Your task to perform on an android device: Open the web browser Image 0: 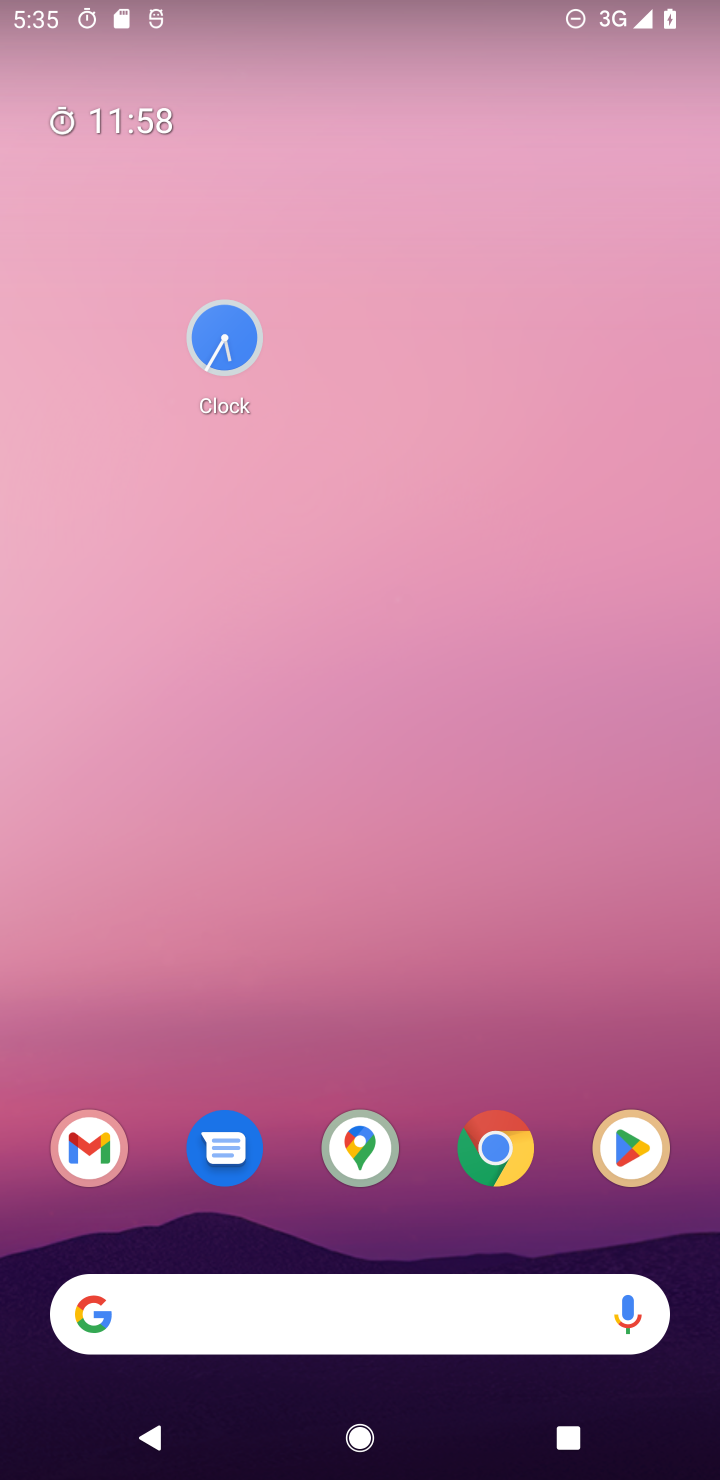
Step 0: drag from (530, 707) to (564, 539)
Your task to perform on an android device: Open the web browser Image 1: 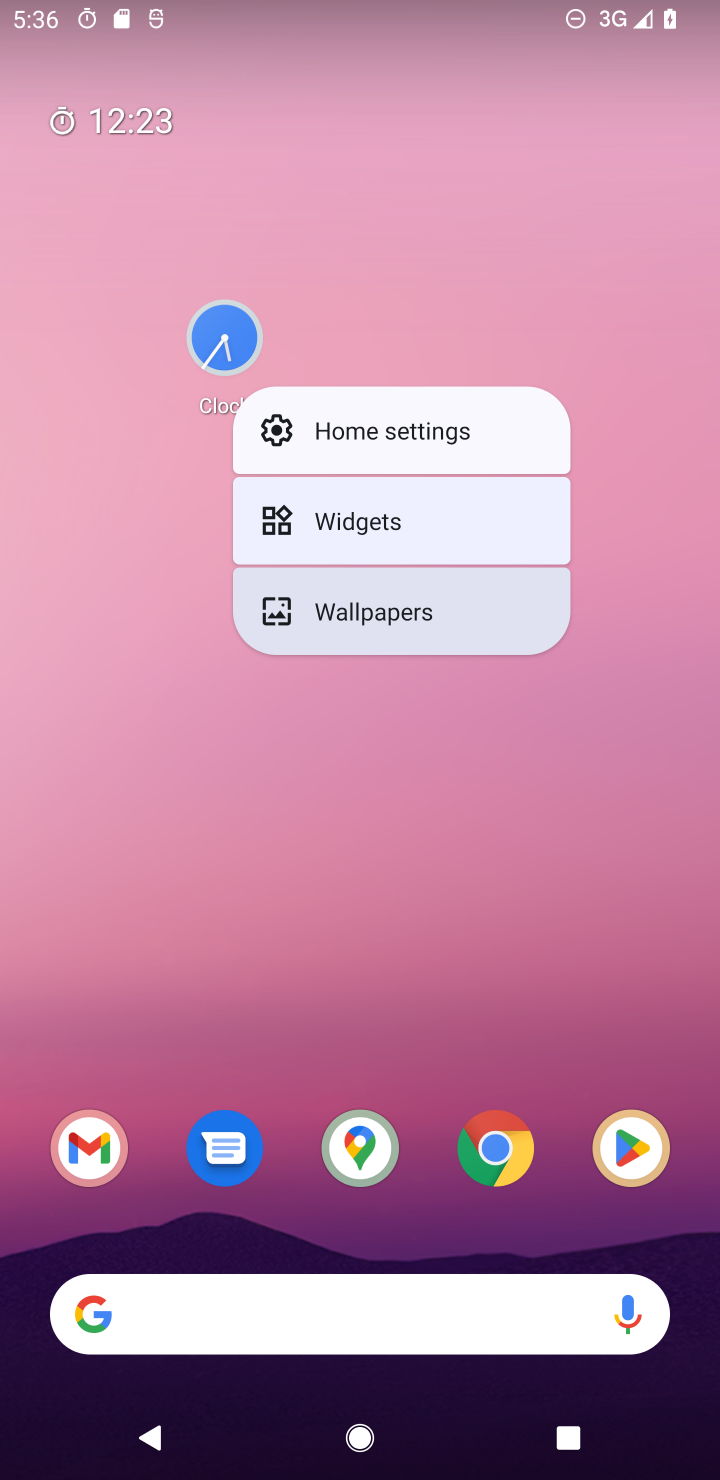
Step 1: click (404, 769)
Your task to perform on an android device: Open the web browser Image 2: 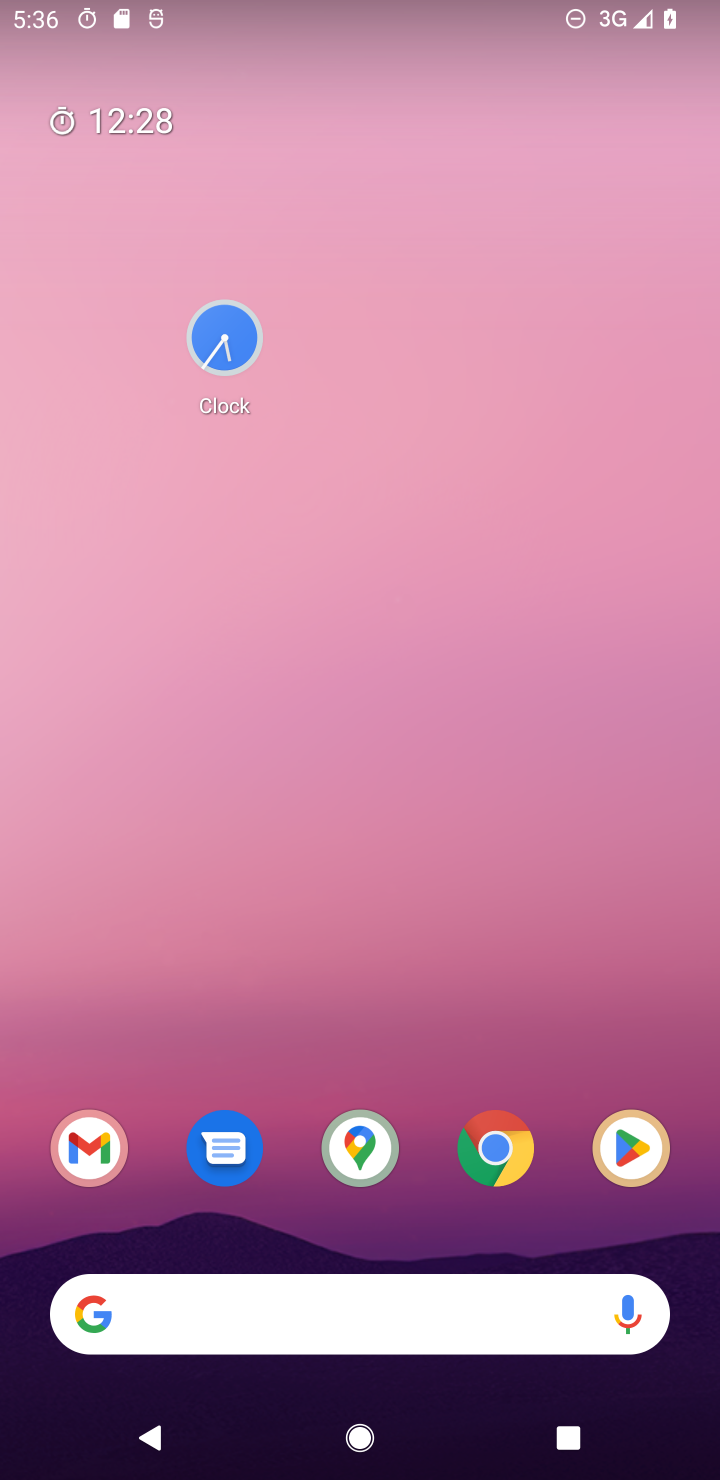
Step 2: click (483, 1166)
Your task to perform on an android device: Open the web browser Image 3: 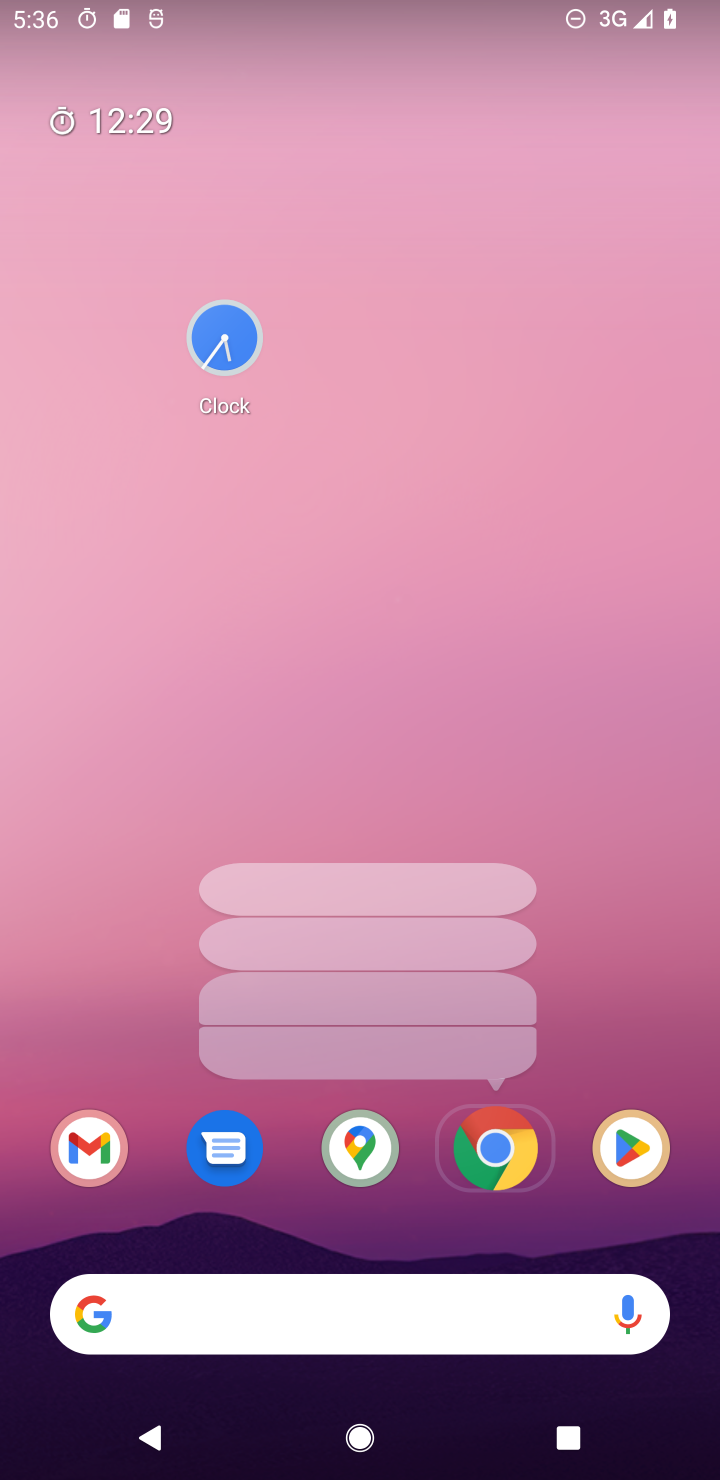
Step 3: click (478, 1158)
Your task to perform on an android device: Open the web browser Image 4: 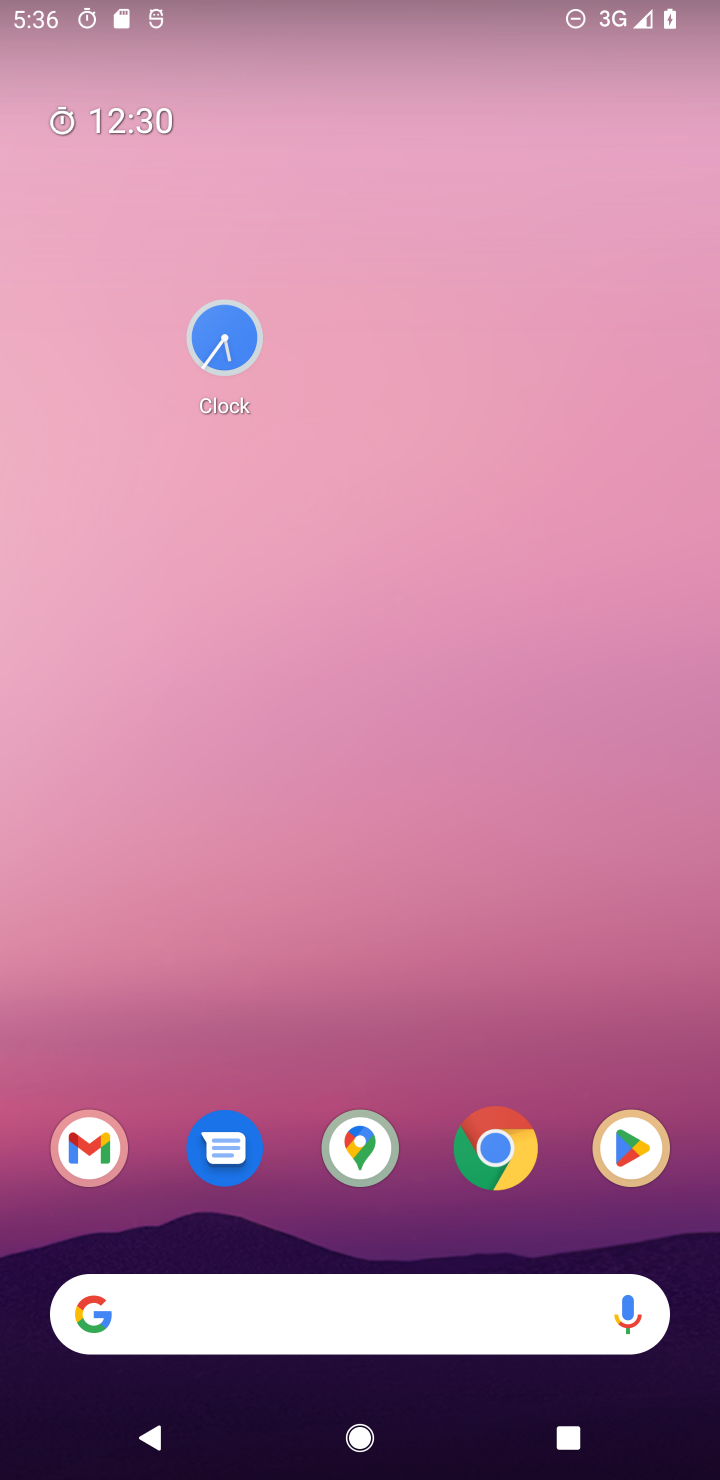
Step 4: click (482, 1152)
Your task to perform on an android device: Open the web browser Image 5: 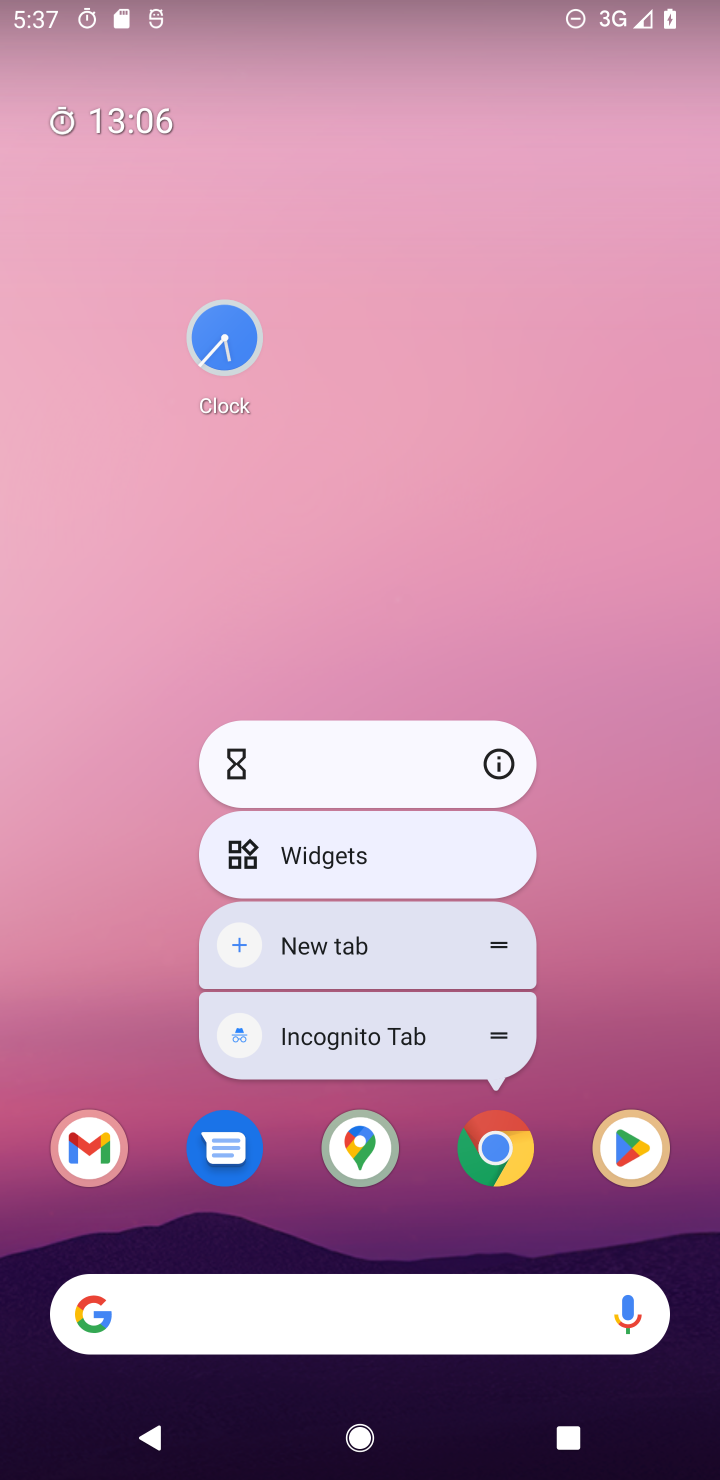
Step 5: click (501, 742)
Your task to perform on an android device: Open the web browser Image 6: 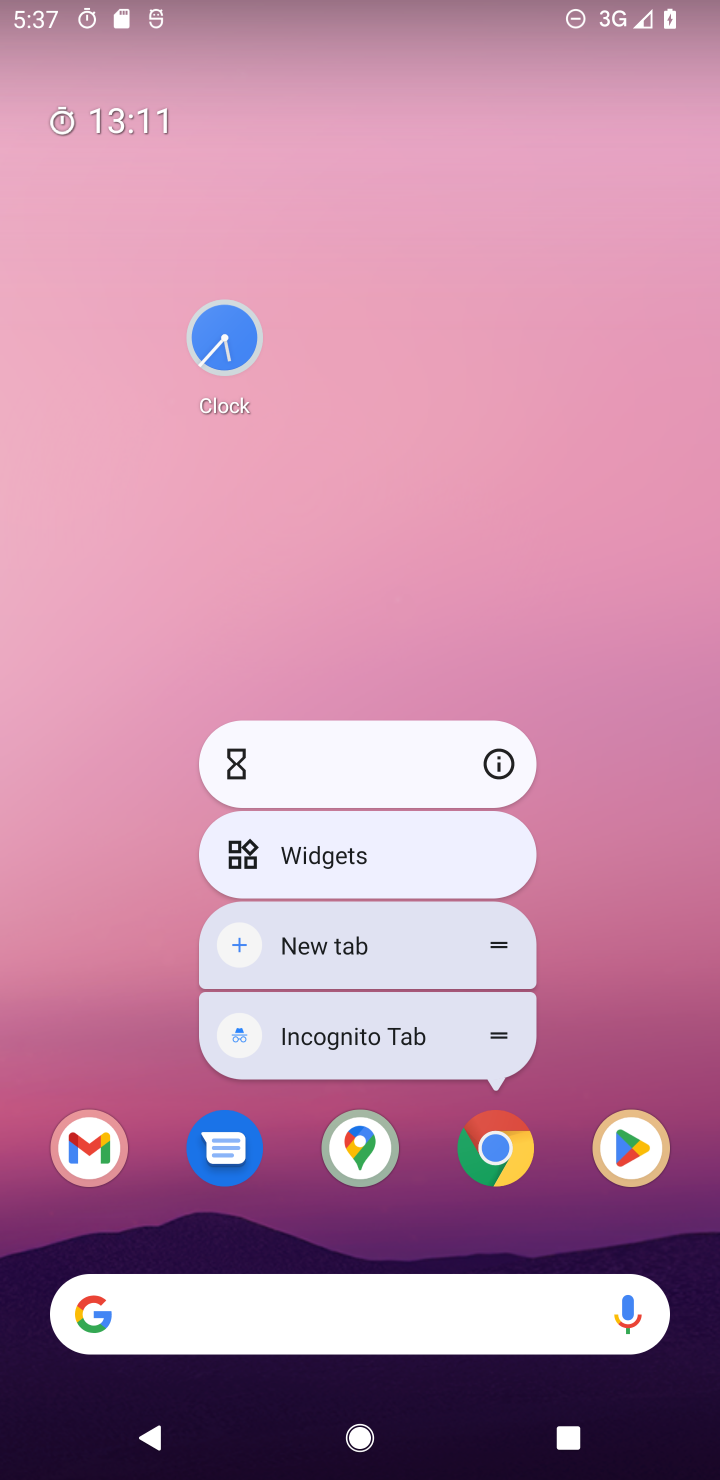
Step 6: click (500, 751)
Your task to perform on an android device: Open the web browser Image 7: 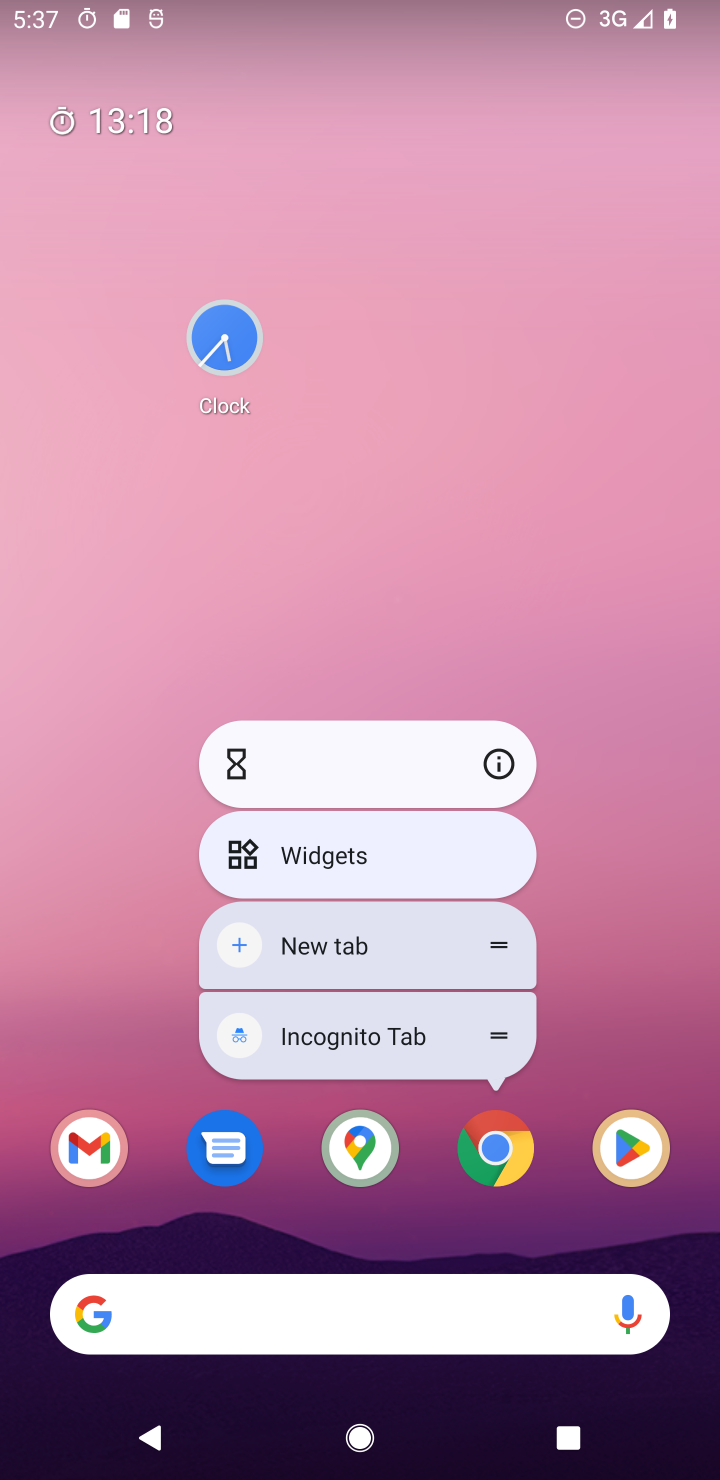
Step 7: click (511, 775)
Your task to perform on an android device: Open the web browser Image 8: 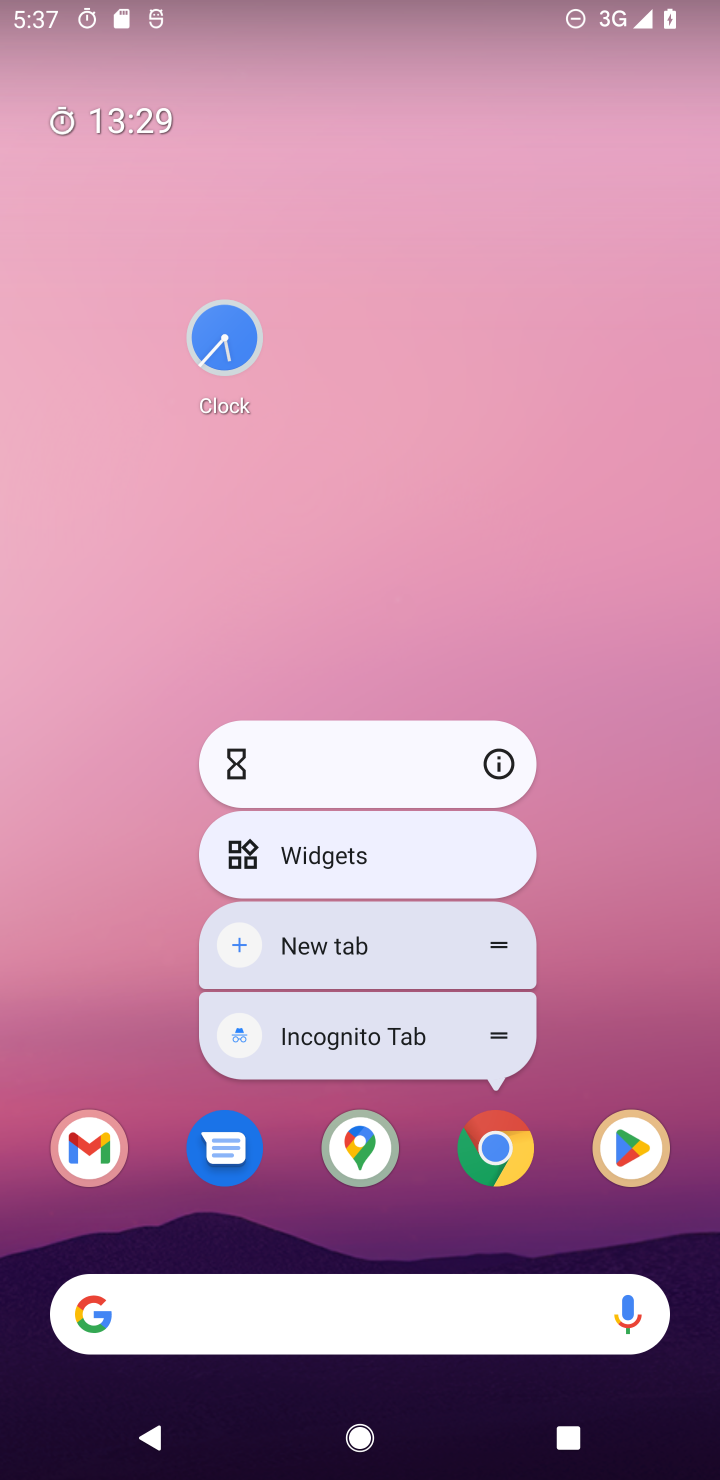
Step 8: click (506, 761)
Your task to perform on an android device: Open the web browser Image 9: 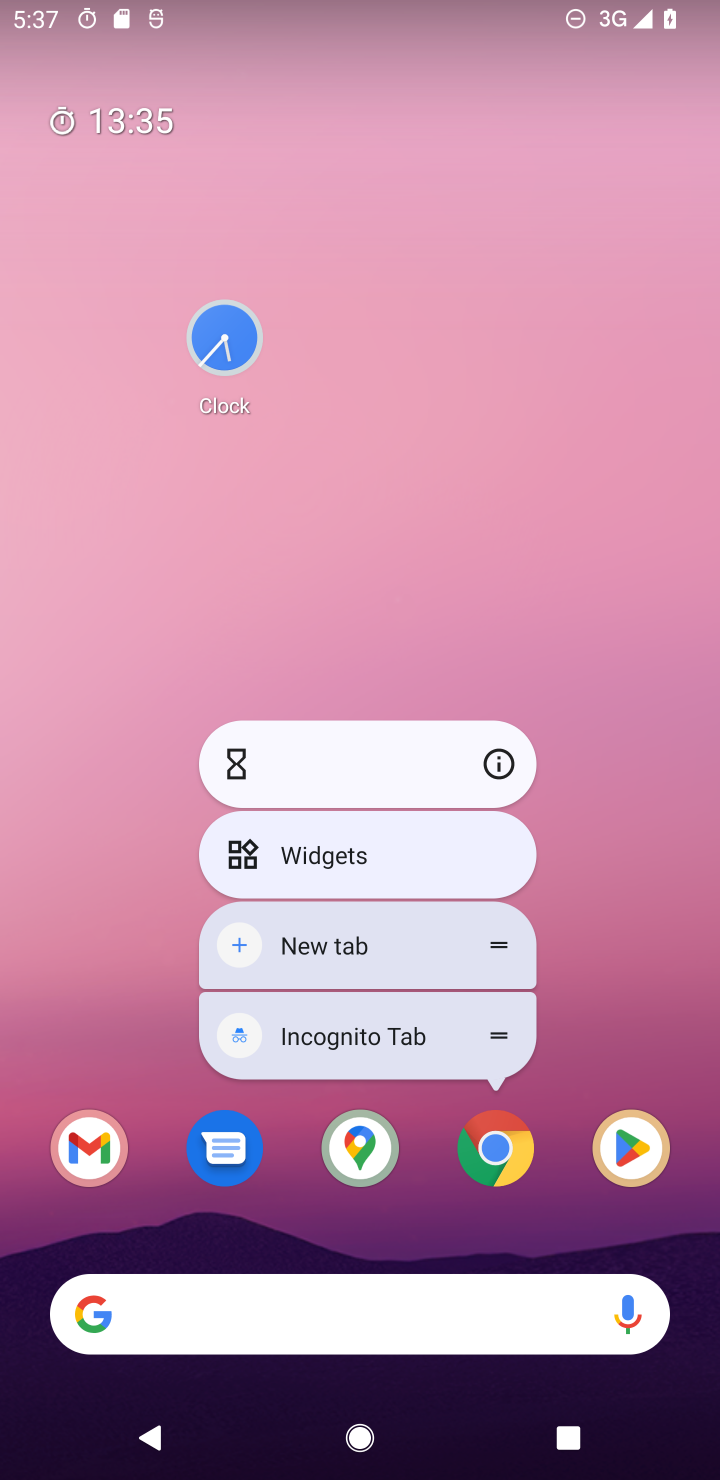
Step 9: click (505, 748)
Your task to perform on an android device: Open the web browser Image 10: 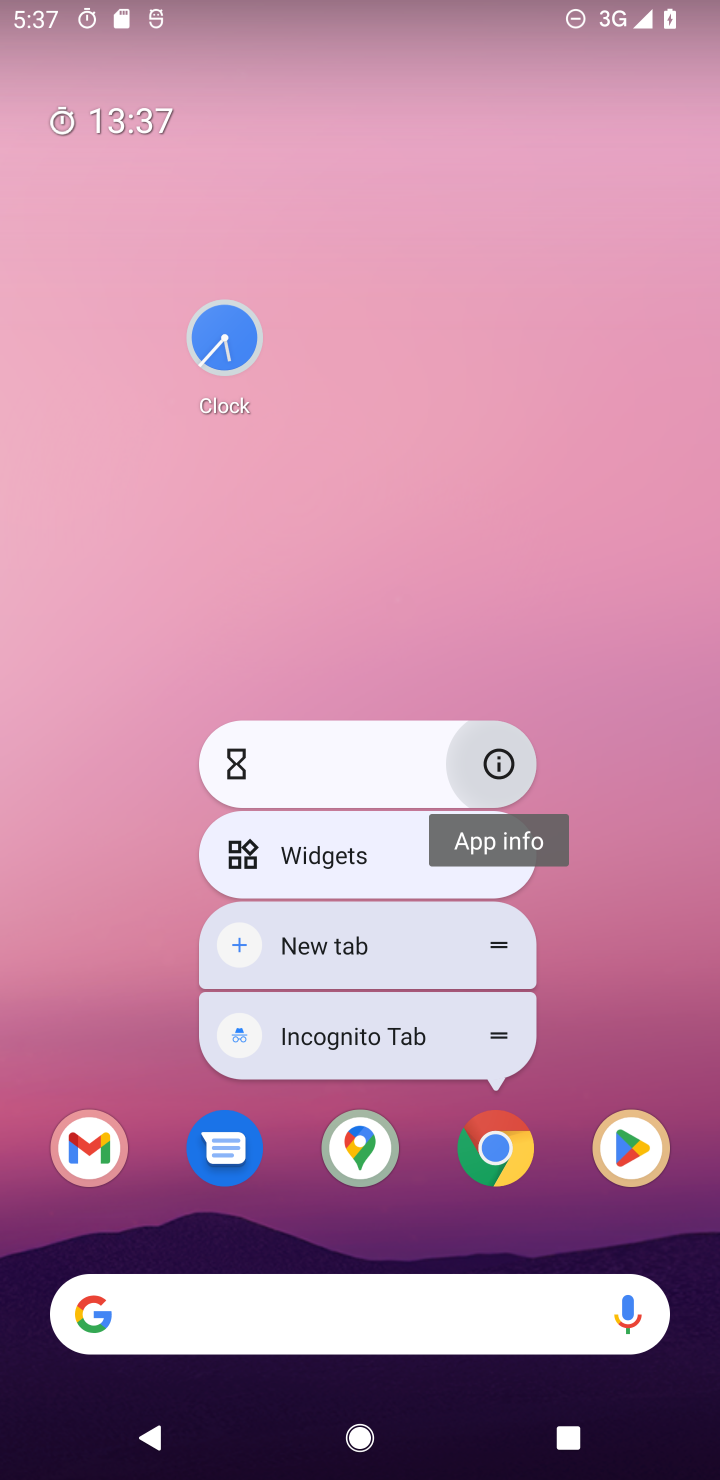
Step 10: click (505, 750)
Your task to perform on an android device: Open the web browser Image 11: 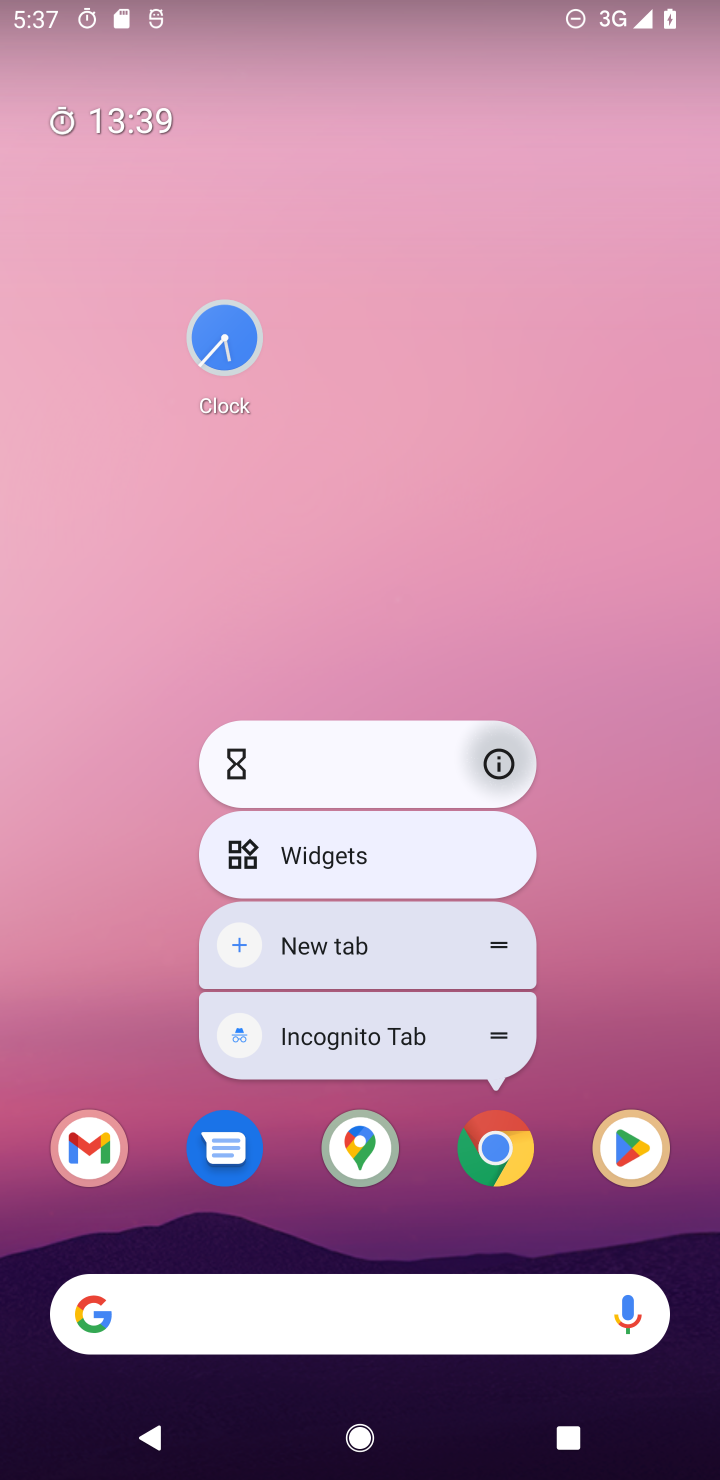
Step 11: click (505, 750)
Your task to perform on an android device: Open the web browser Image 12: 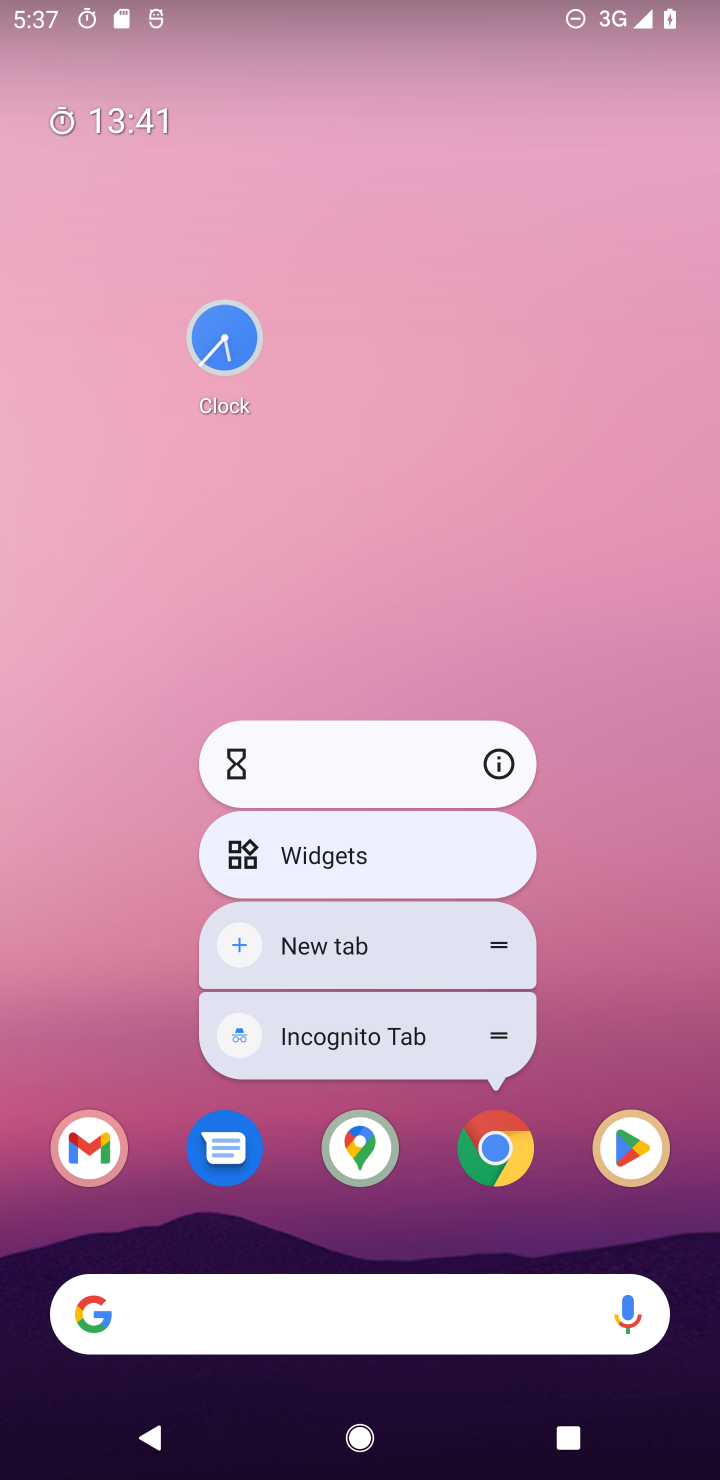
Step 12: click (505, 750)
Your task to perform on an android device: Open the web browser Image 13: 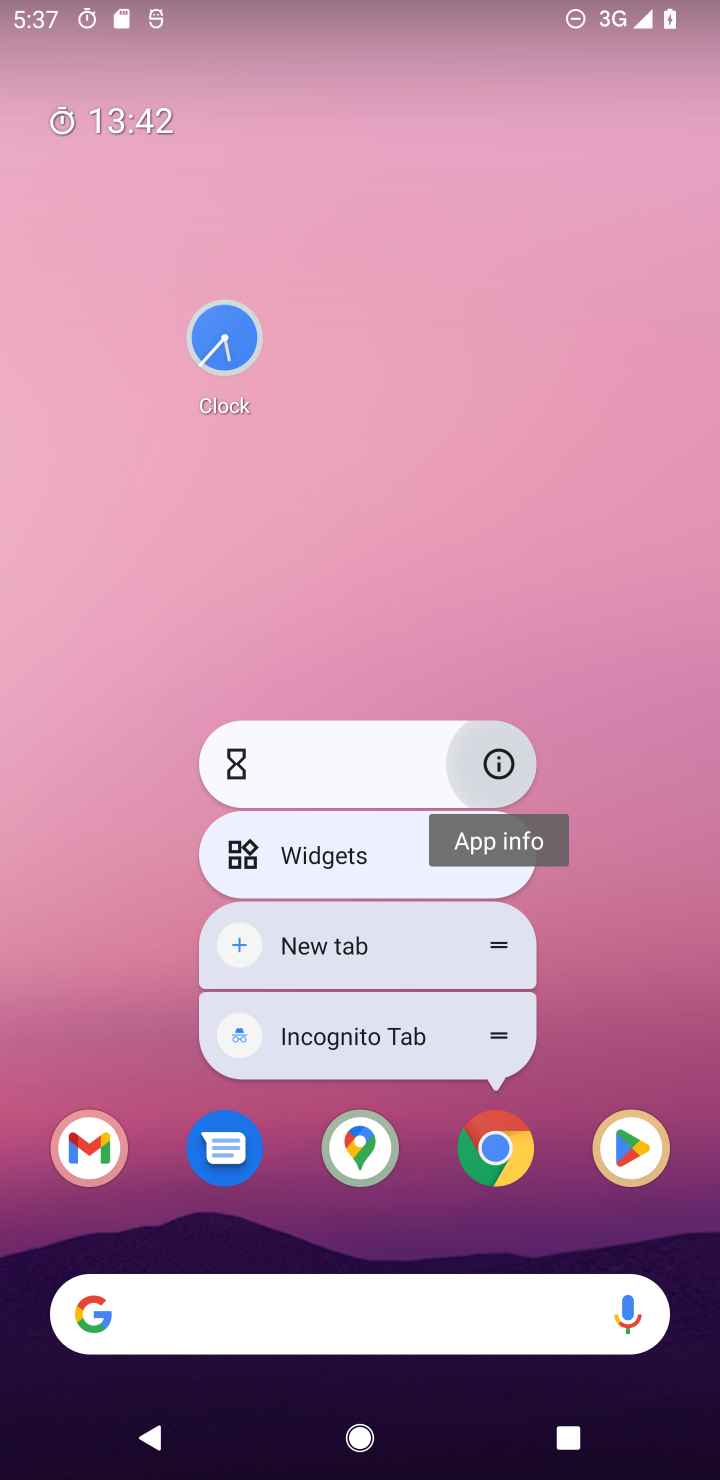
Step 13: click (505, 750)
Your task to perform on an android device: Open the web browser Image 14: 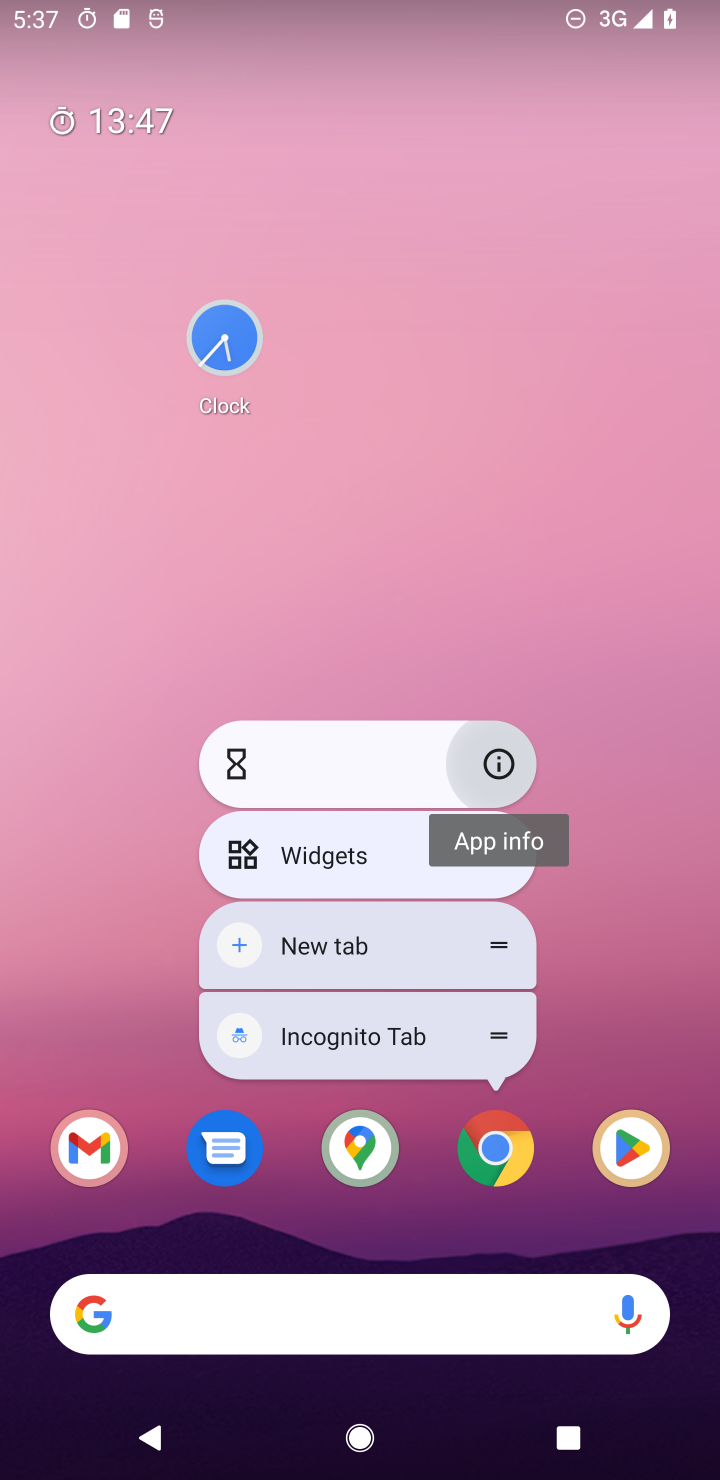
Step 14: click (494, 1222)
Your task to perform on an android device: Open the web browser Image 15: 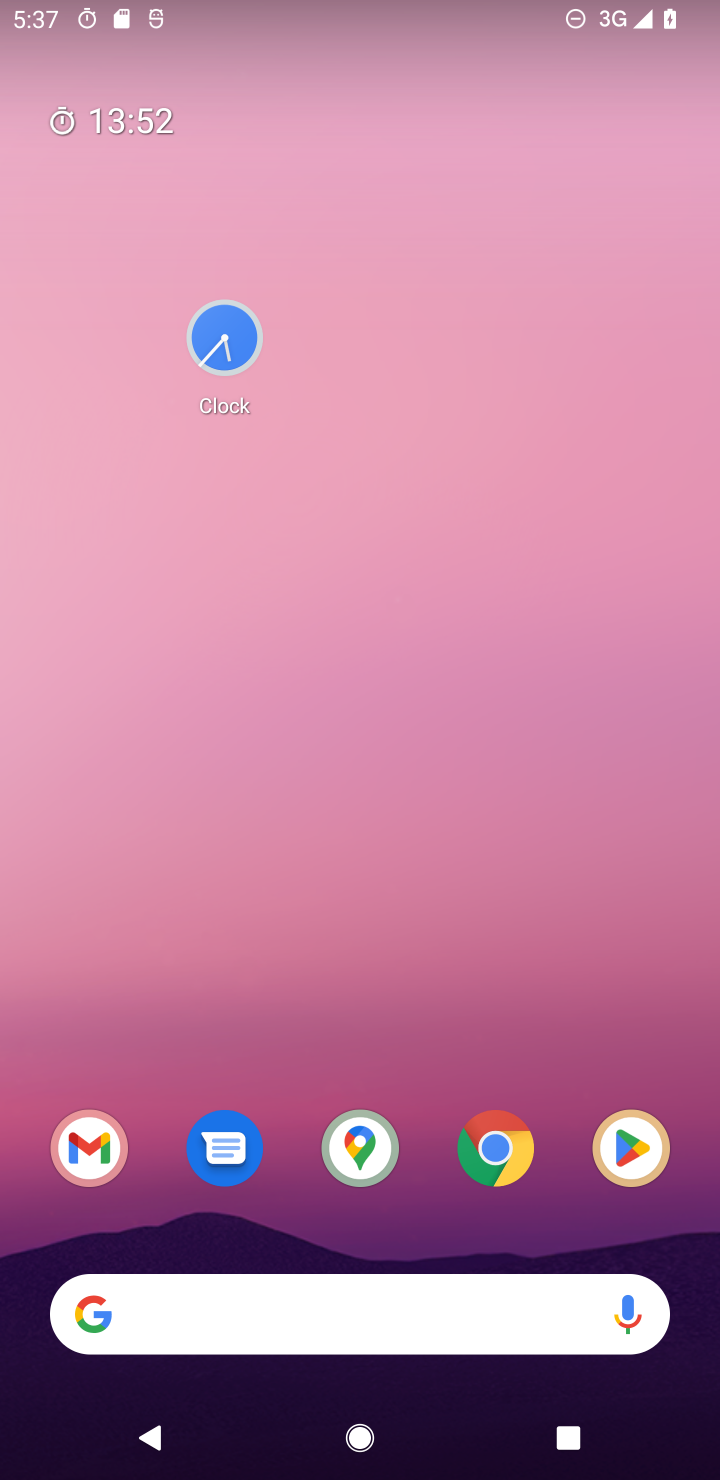
Step 15: click (501, 1143)
Your task to perform on an android device: Open the web browser Image 16: 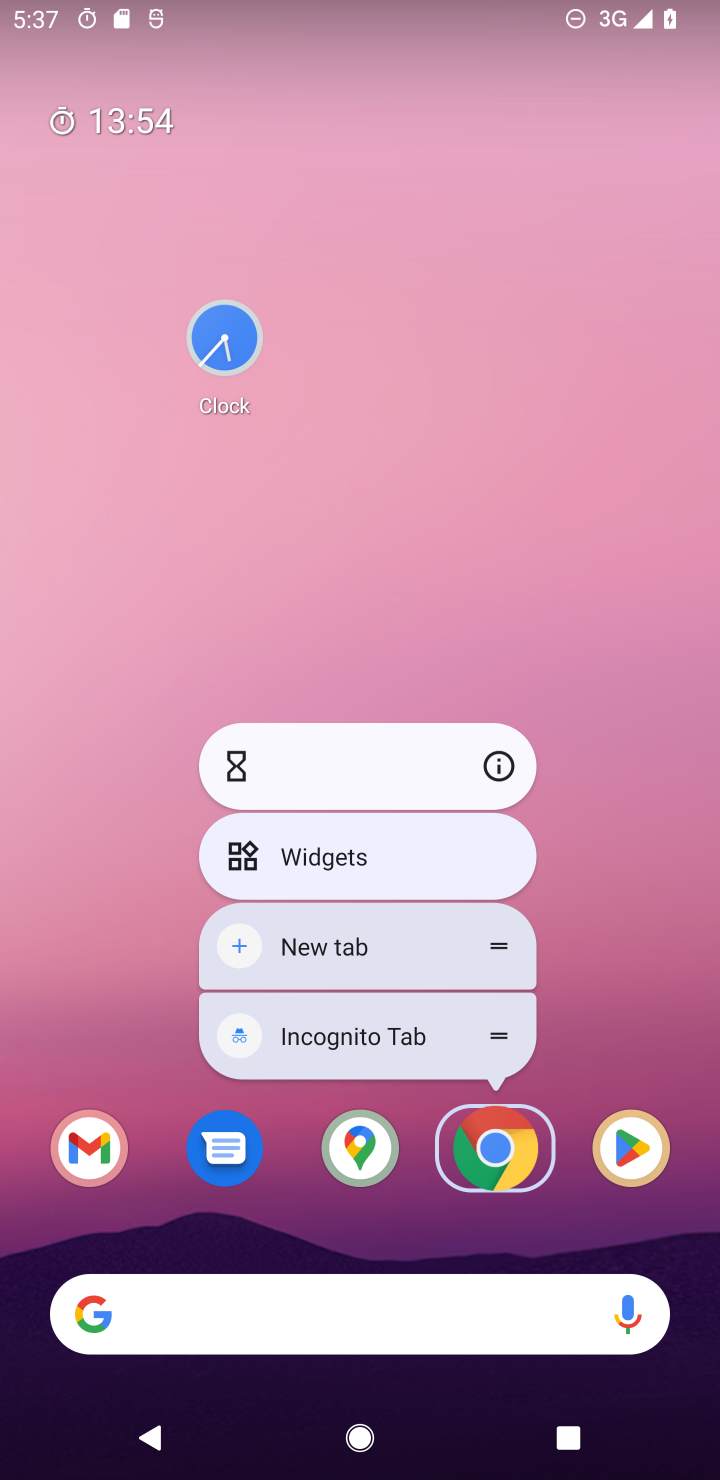
Step 16: drag from (391, 1255) to (526, 468)
Your task to perform on an android device: Open the web browser Image 17: 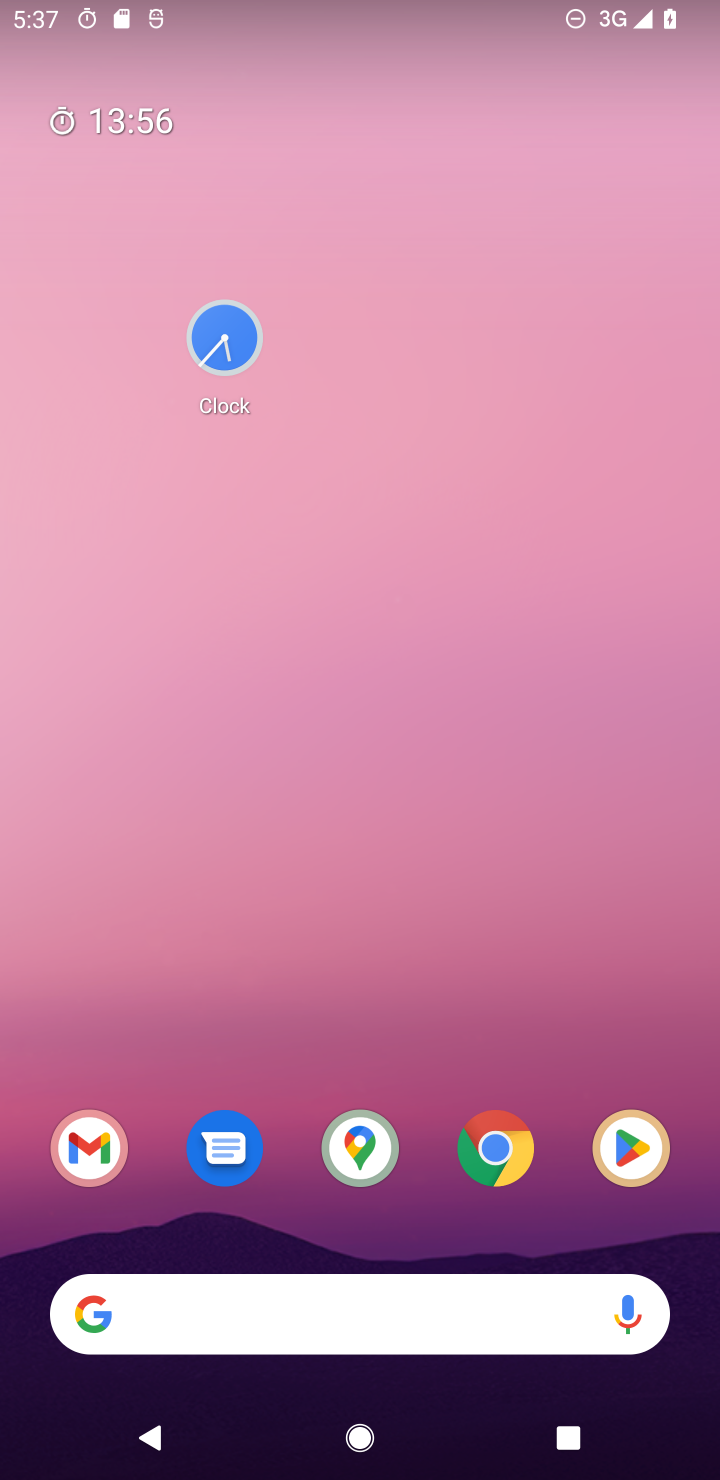
Step 17: drag from (263, 1249) to (299, 794)
Your task to perform on an android device: Open the web browser Image 18: 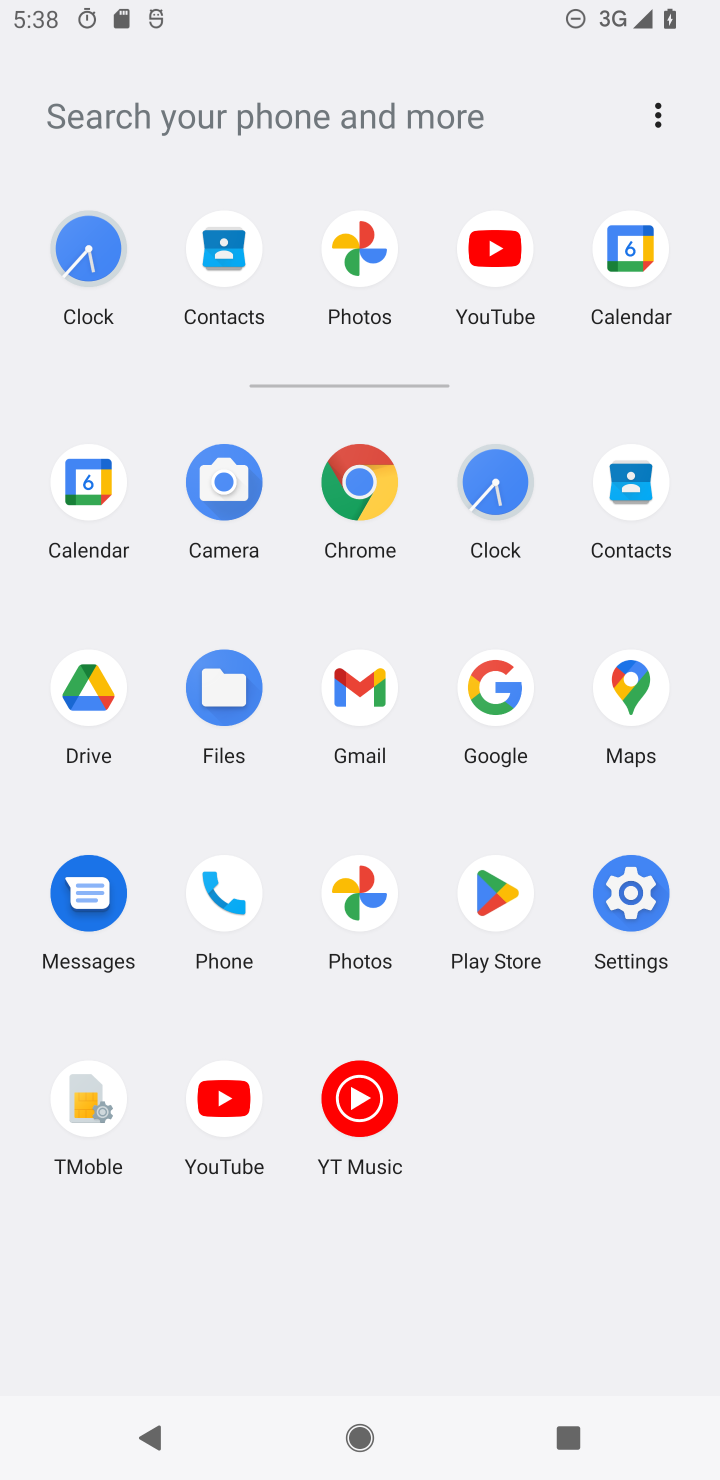
Step 18: click (342, 483)
Your task to perform on an android device: Open the web browser Image 19: 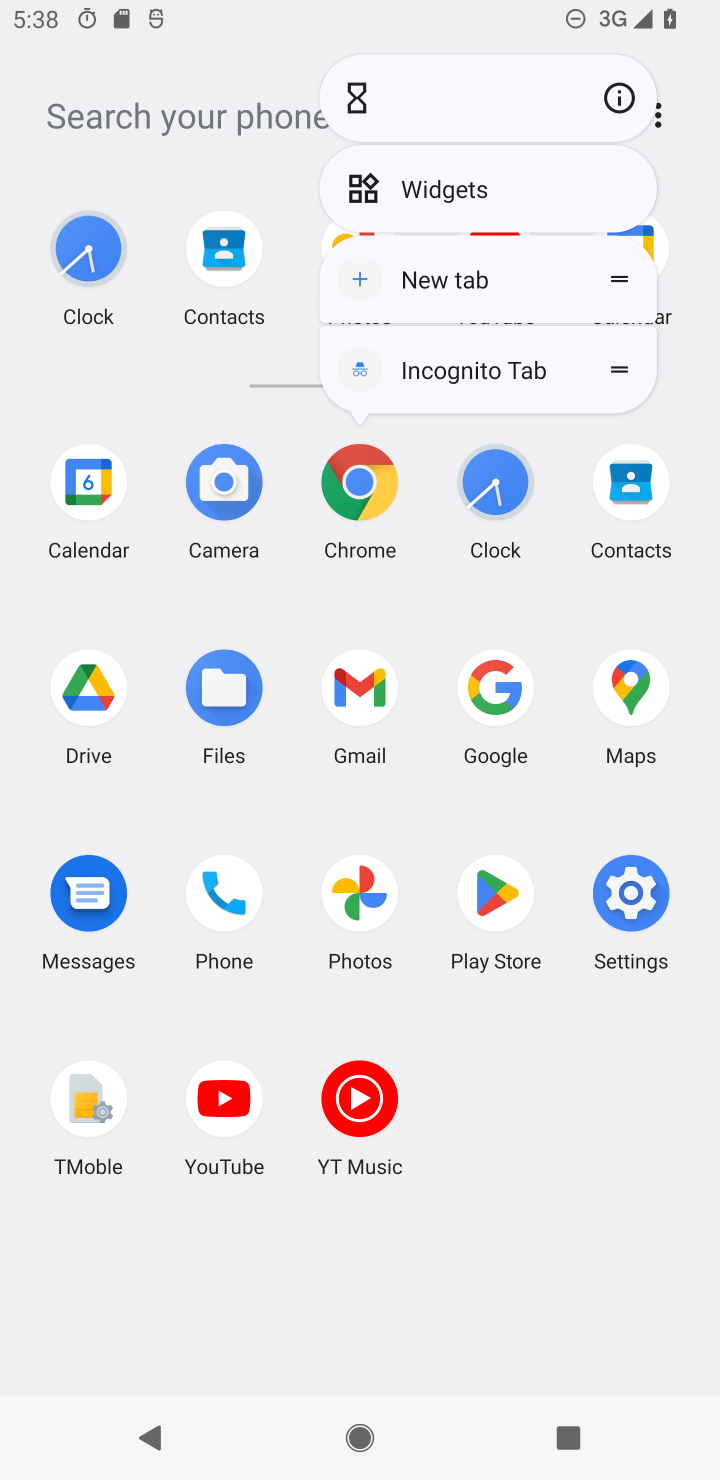
Step 19: click (358, 493)
Your task to perform on an android device: Open the web browser Image 20: 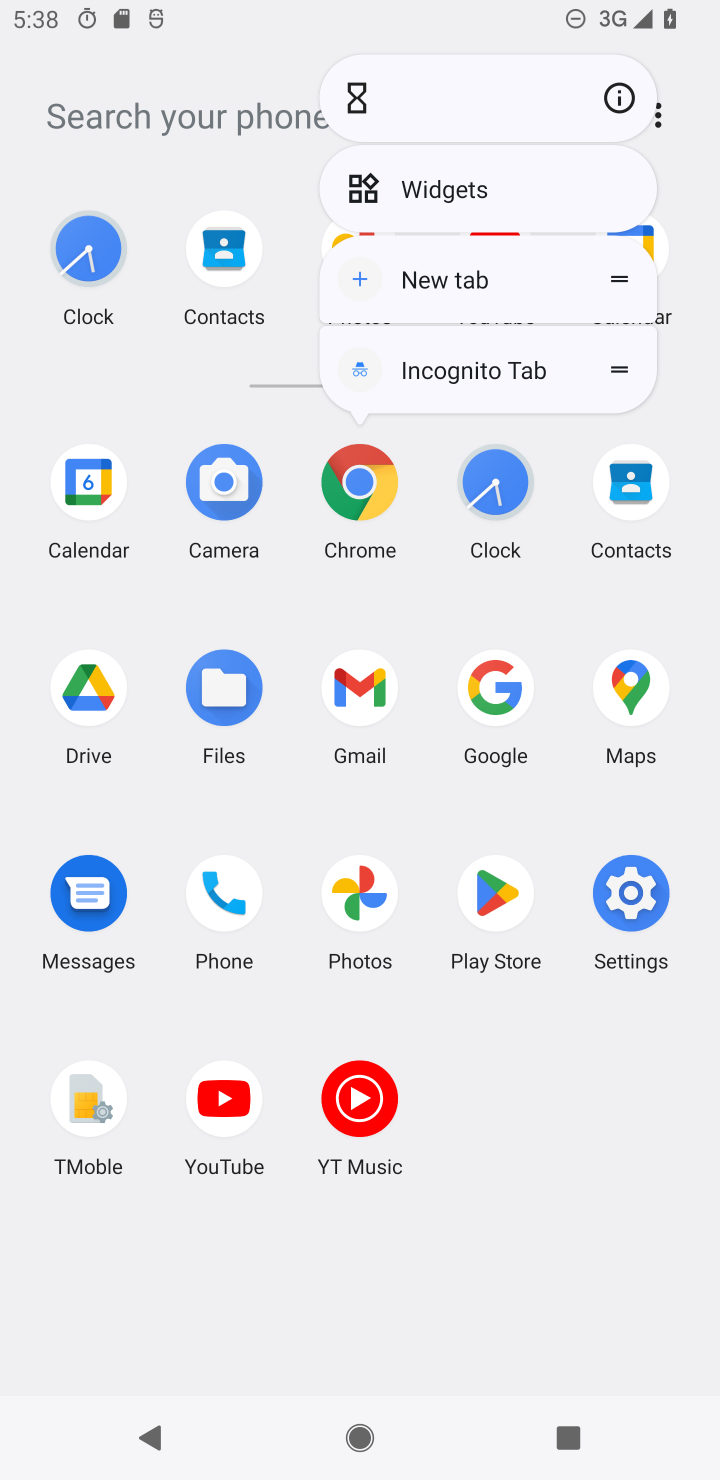
Step 20: click (356, 491)
Your task to perform on an android device: Open the web browser Image 21: 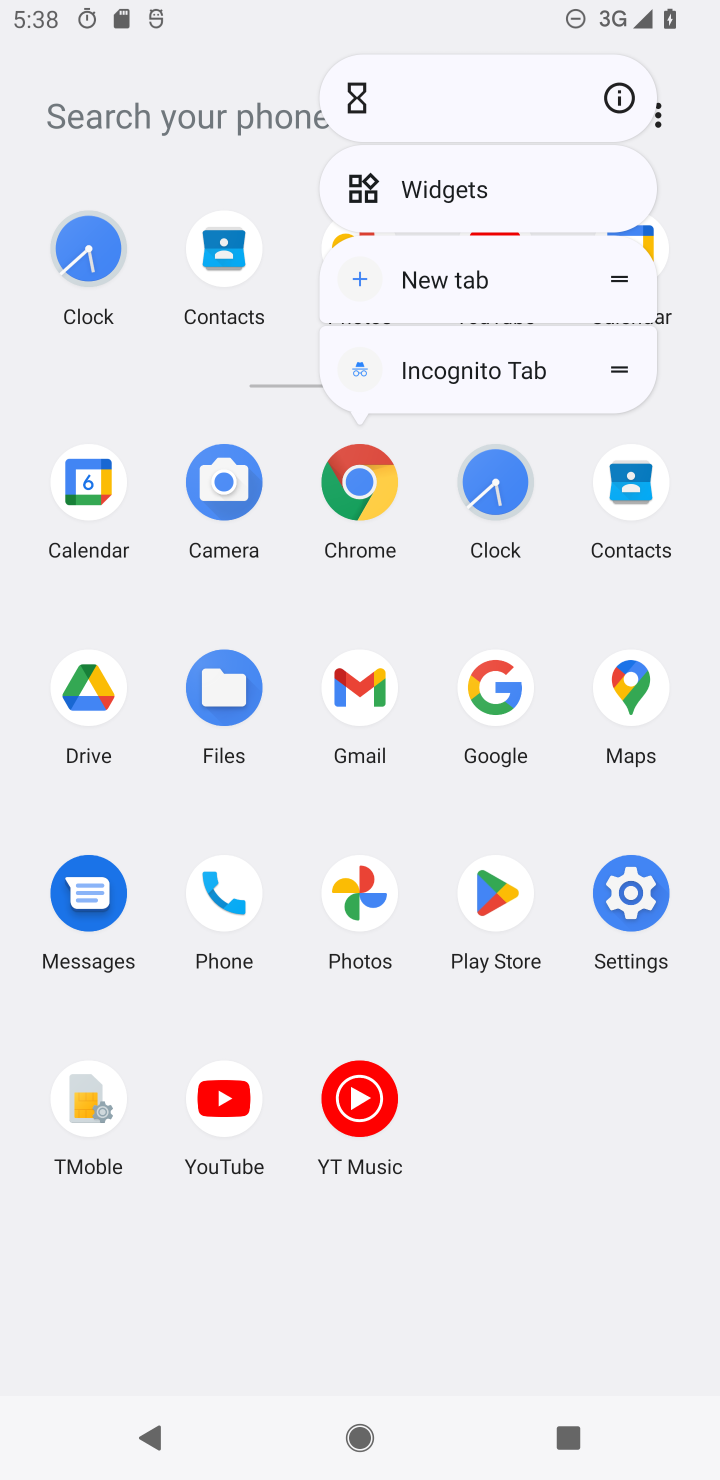
Step 21: click (615, 102)
Your task to perform on an android device: Open the web browser Image 22: 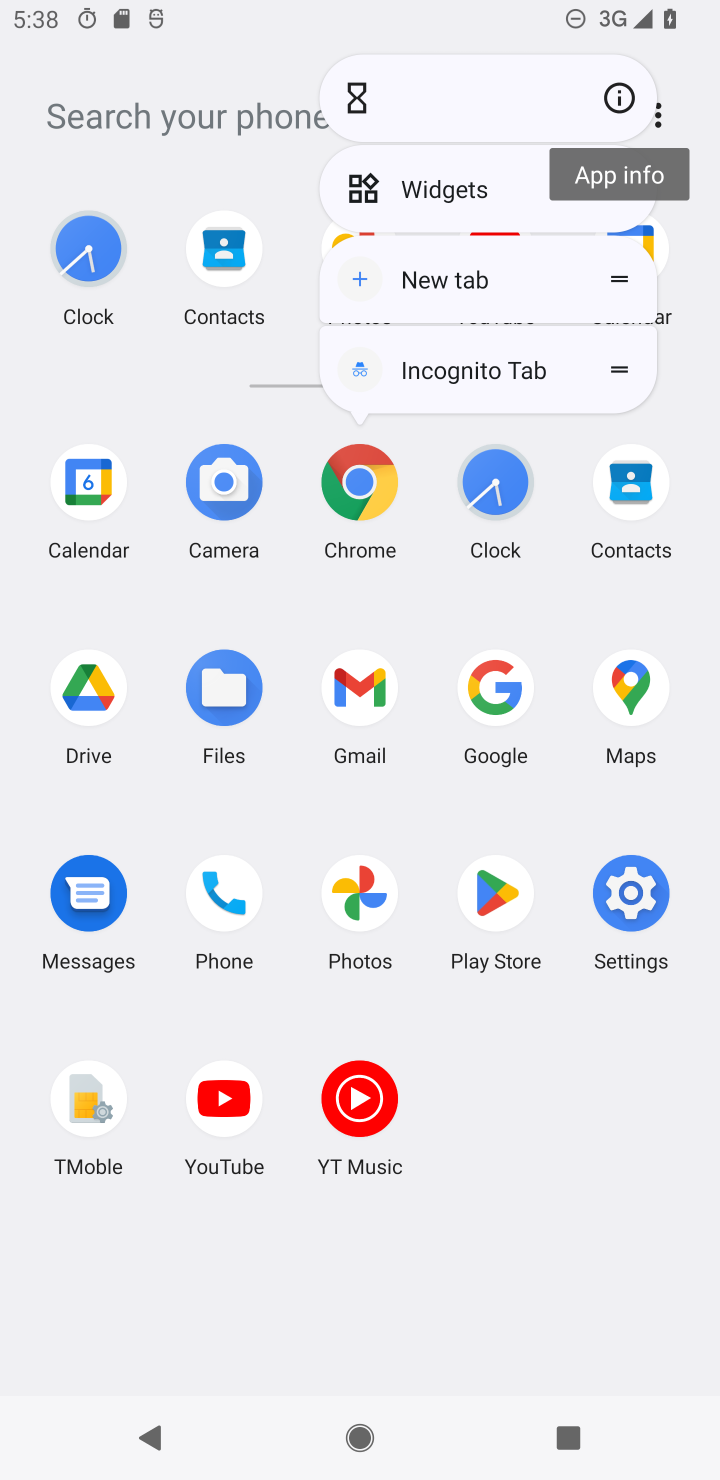
Step 22: click (615, 102)
Your task to perform on an android device: Open the web browser Image 23: 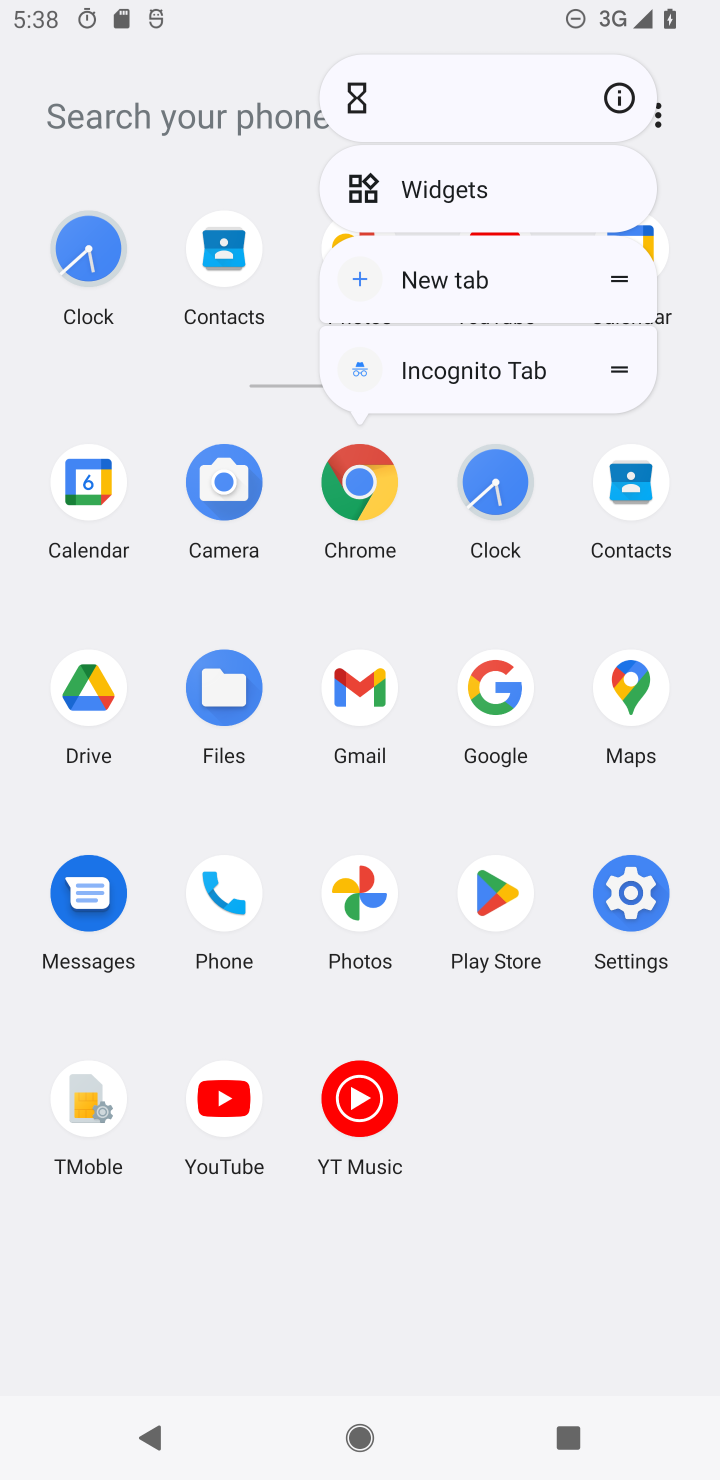
Step 23: click (625, 86)
Your task to perform on an android device: Open the web browser Image 24: 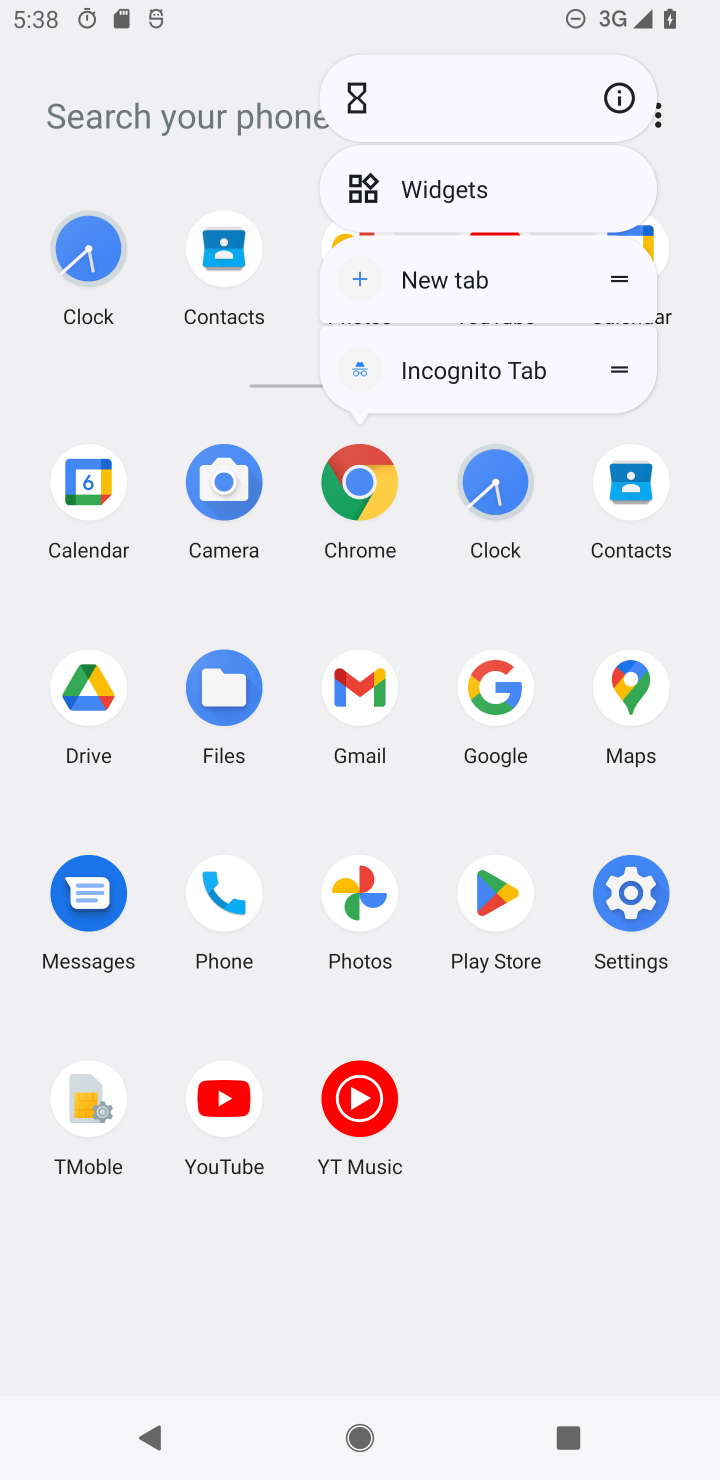
Step 24: click (631, 81)
Your task to perform on an android device: Open the web browser Image 25: 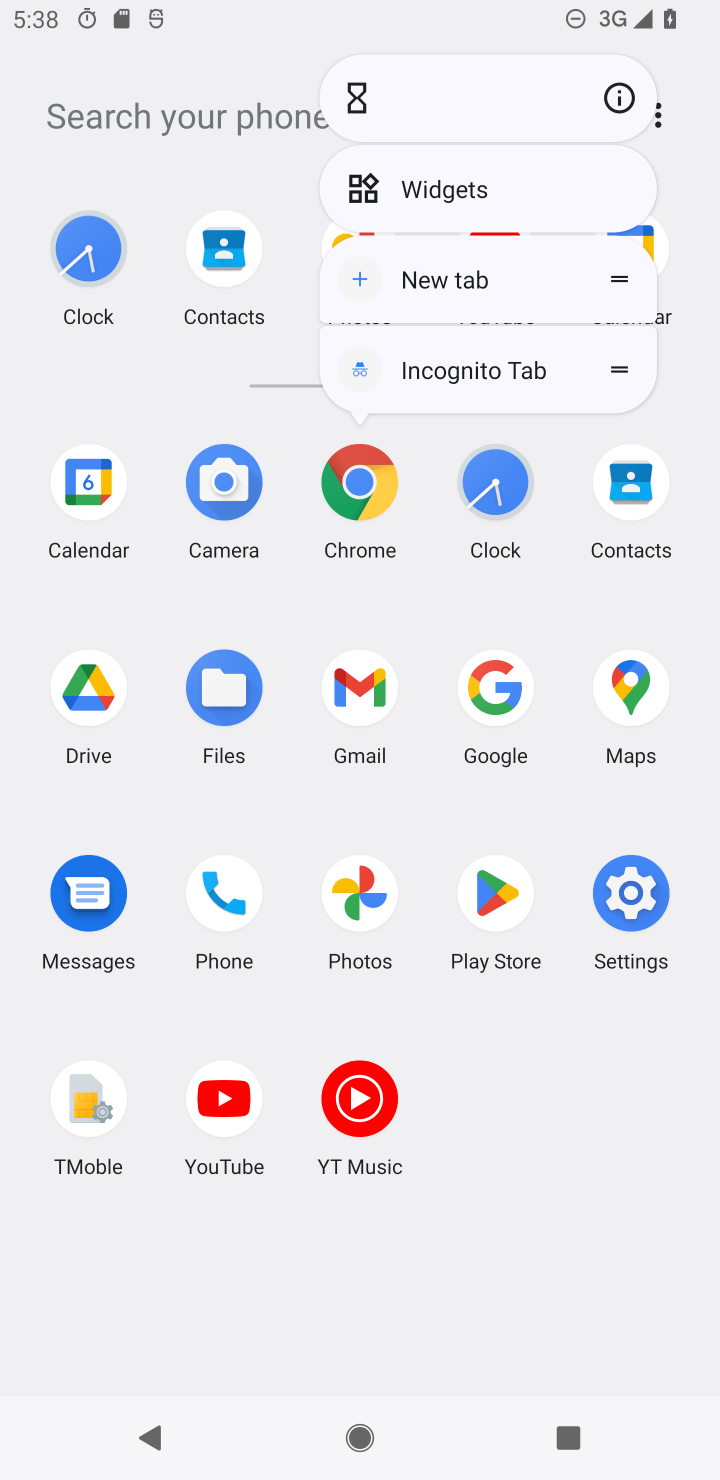
Step 25: click (612, 111)
Your task to perform on an android device: Open the web browser Image 26: 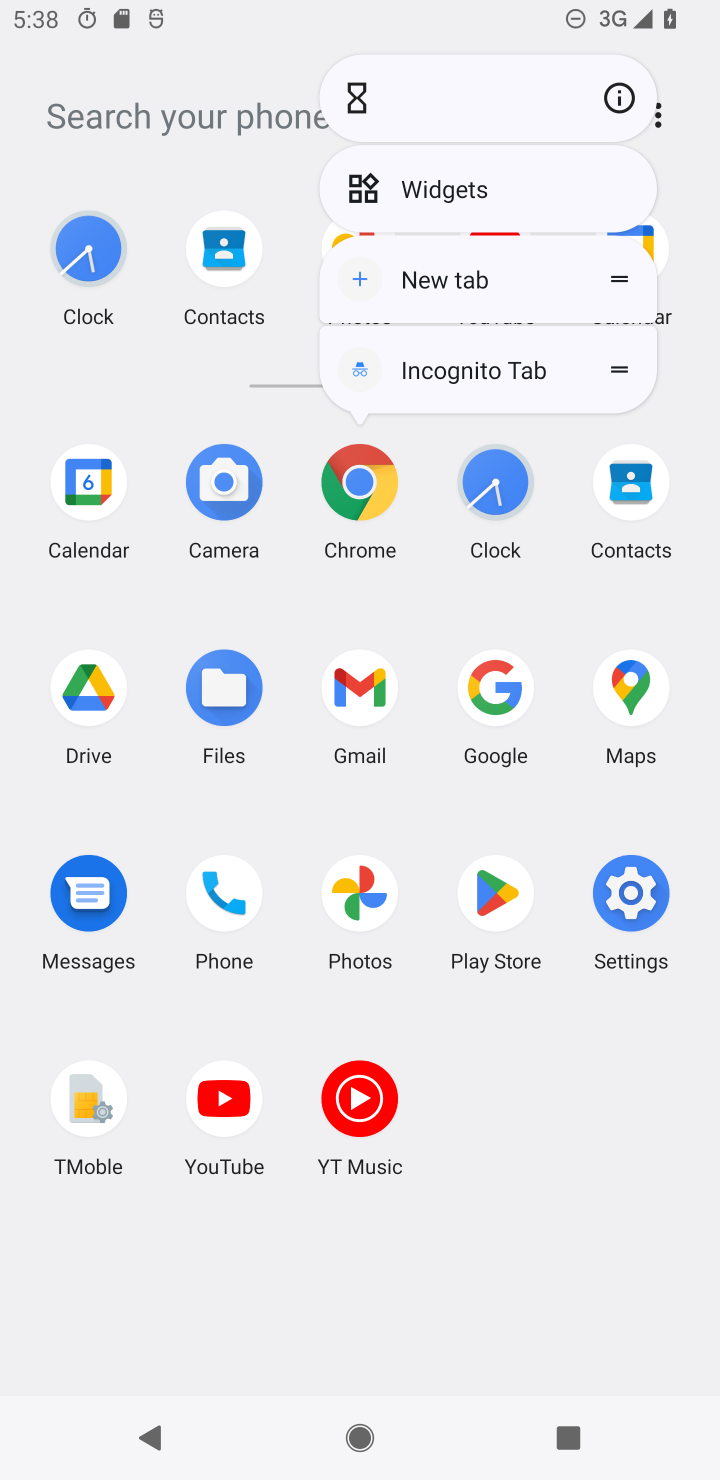
Step 26: click (622, 98)
Your task to perform on an android device: Open the web browser Image 27: 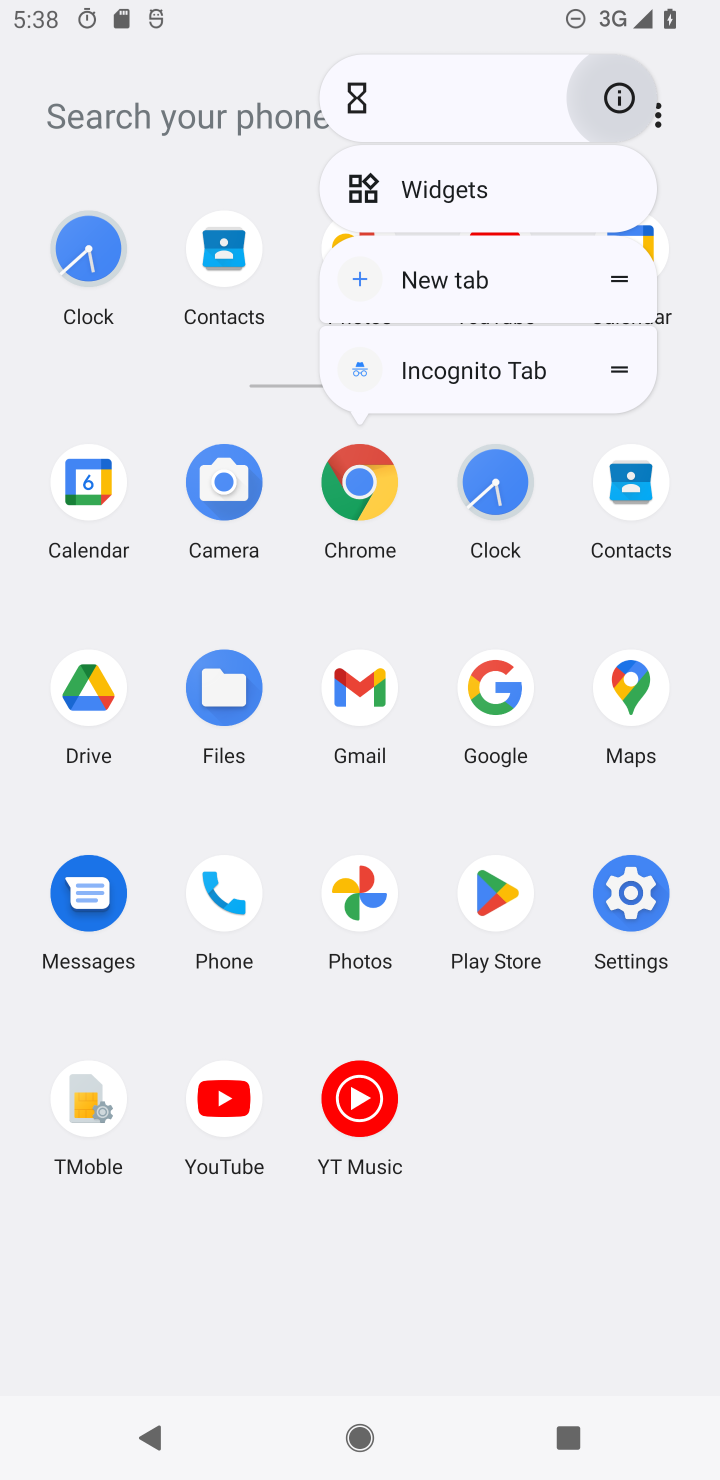
Step 27: click (618, 94)
Your task to perform on an android device: Open the web browser Image 28: 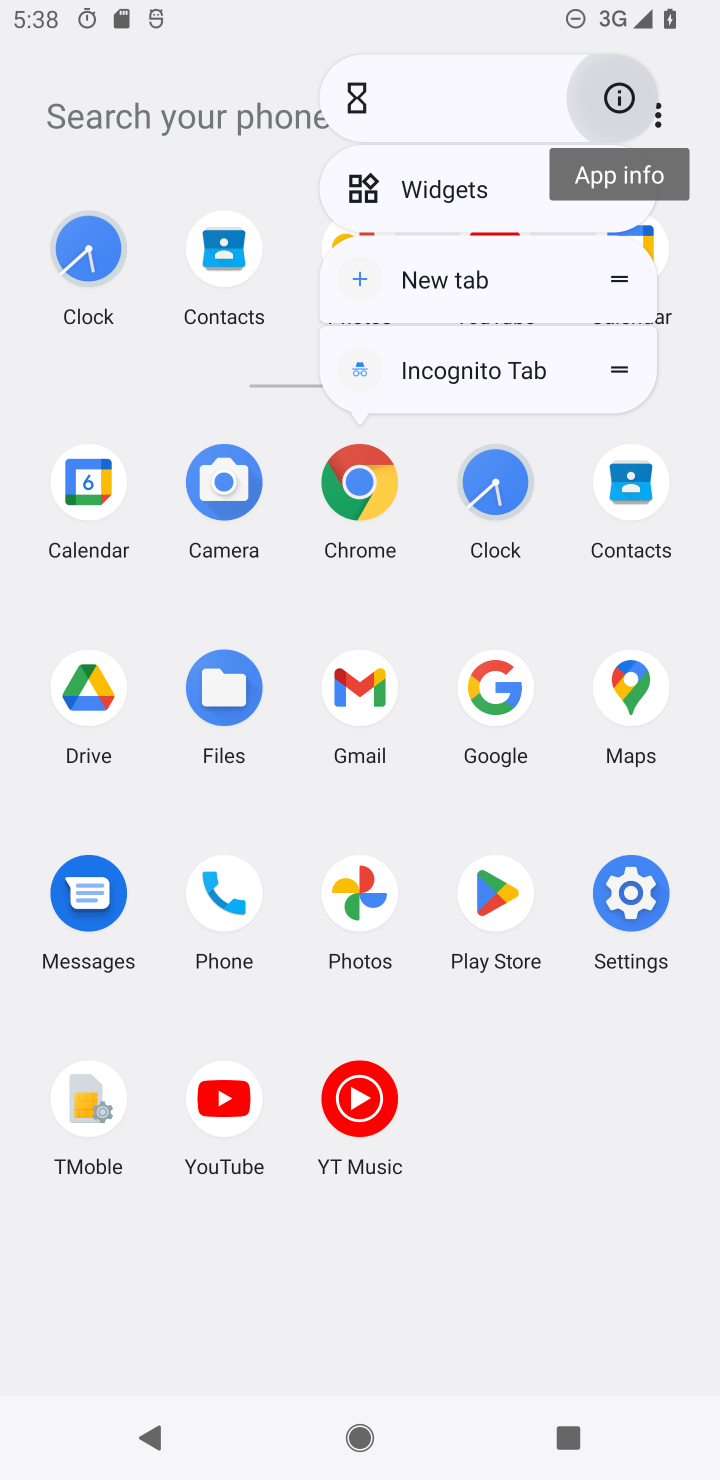
Step 28: click (339, 478)
Your task to perform on an android device: Open the web browser Image 29: 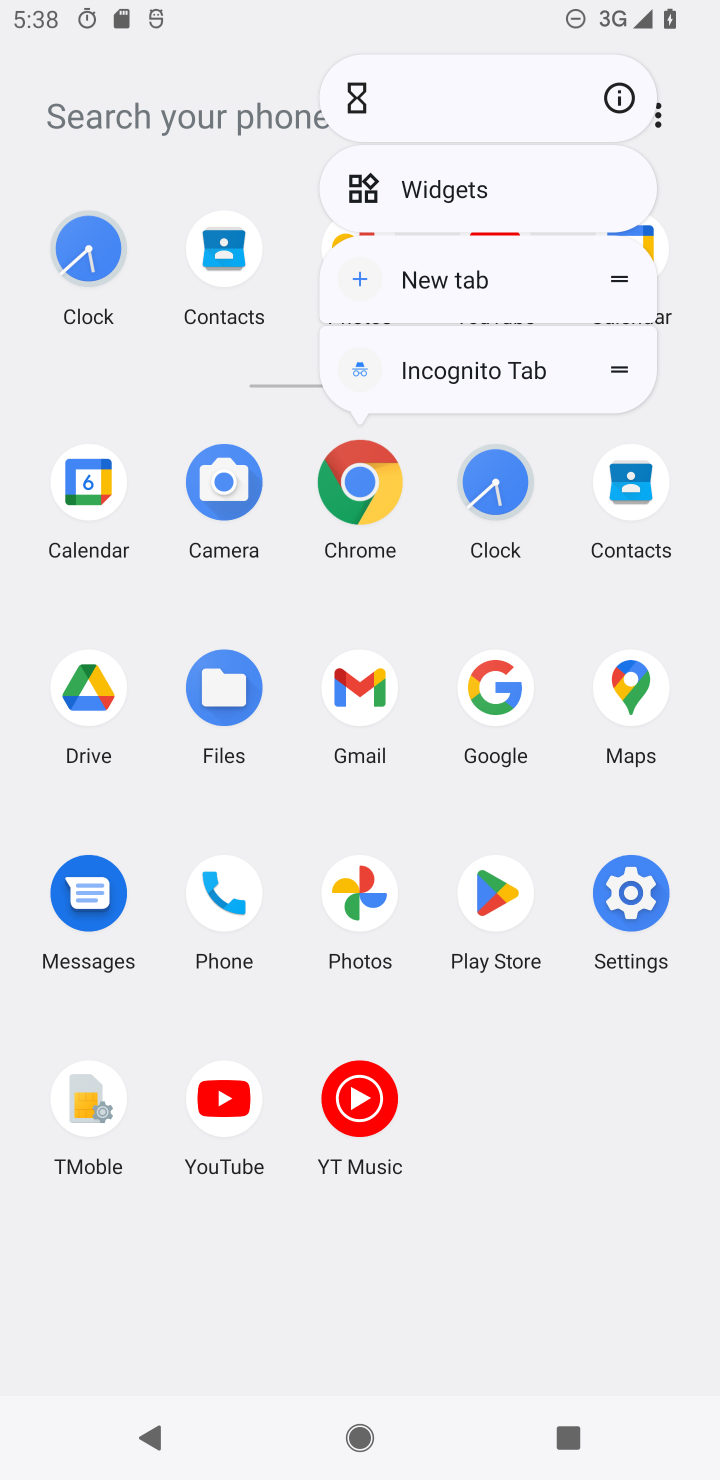
Step 29: click (339, 478)
Your task to perform on an android device: Open the web browser Image 30: 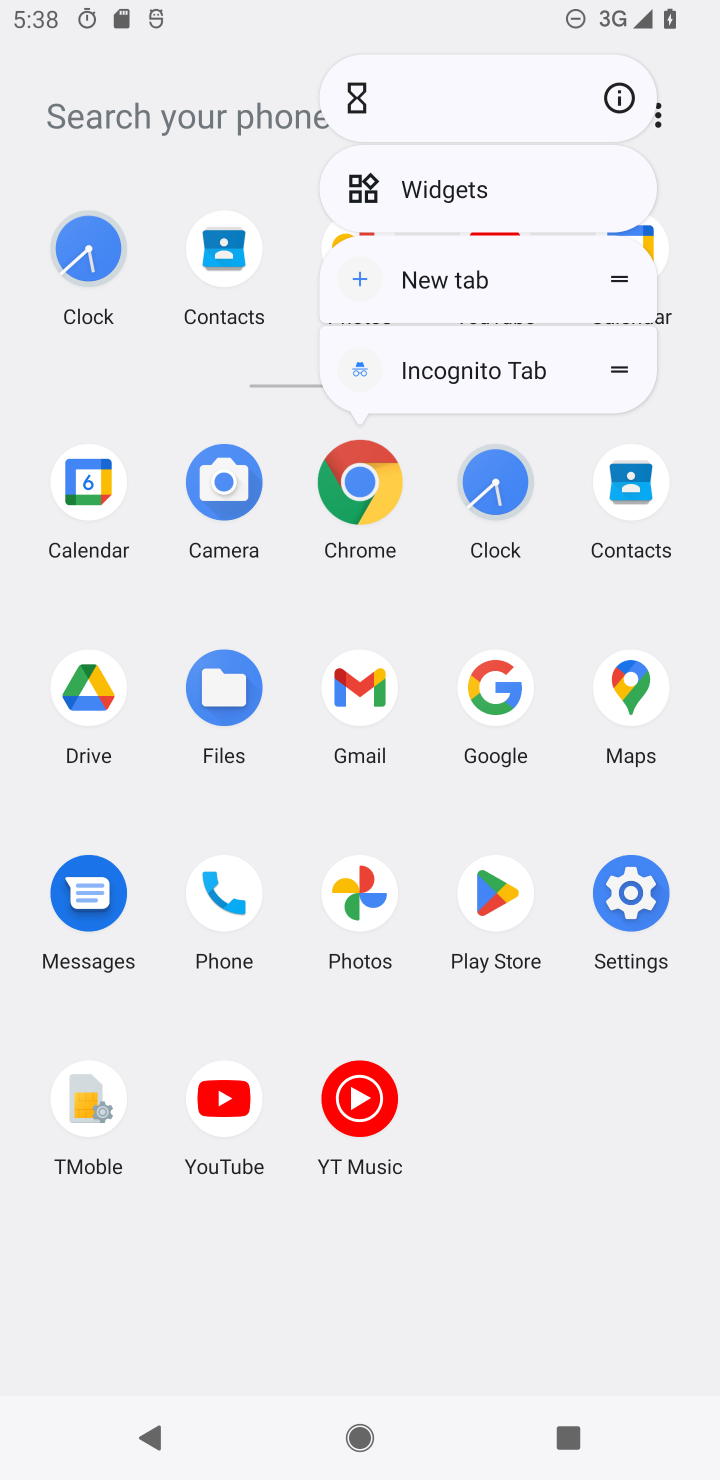
Step 30: click (355, 476)
Your task to perform on an android device: Open the web browser Image 31: 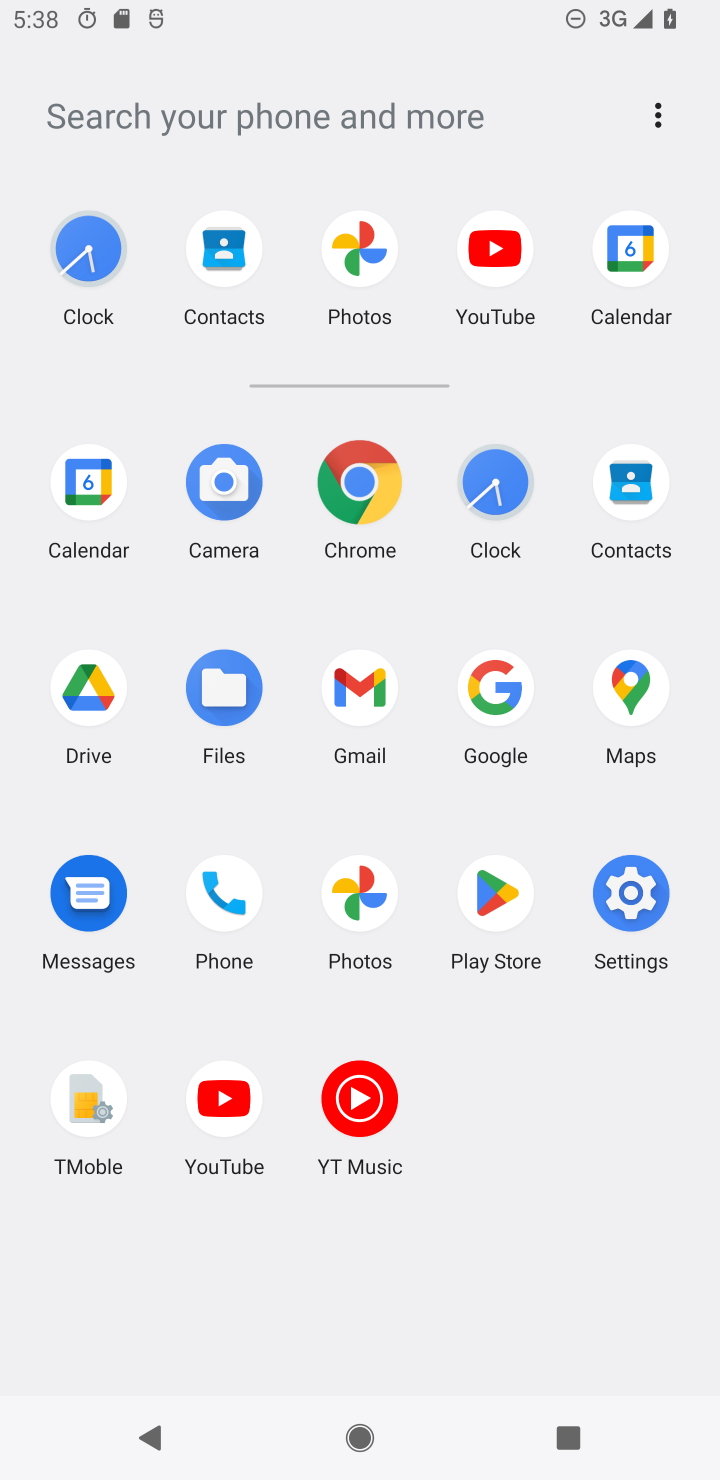
Step 31: click (352, 476)
Your task to perform on an android device: Open the web browser Image 32: 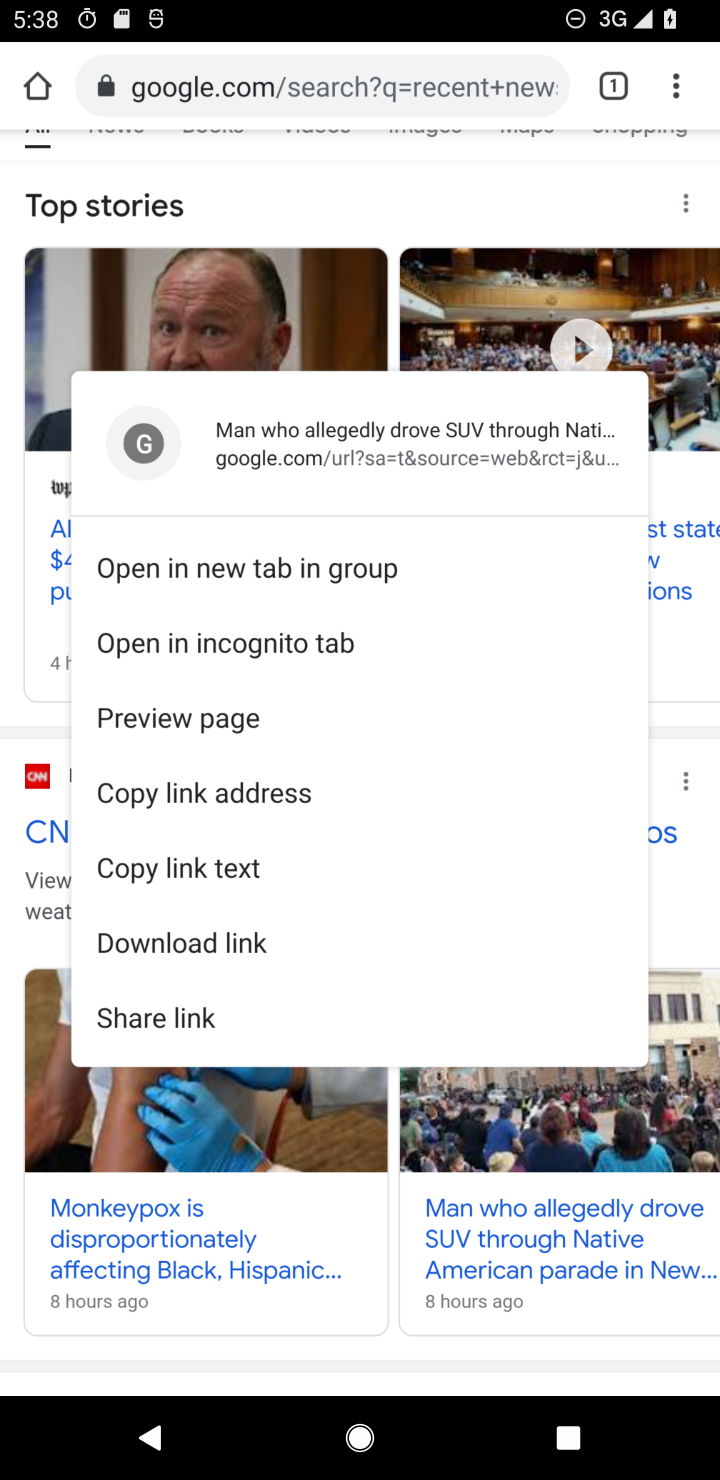
Step 32: click (352, 476)
Your task to perform on an android device: Open the web browser Image 33: 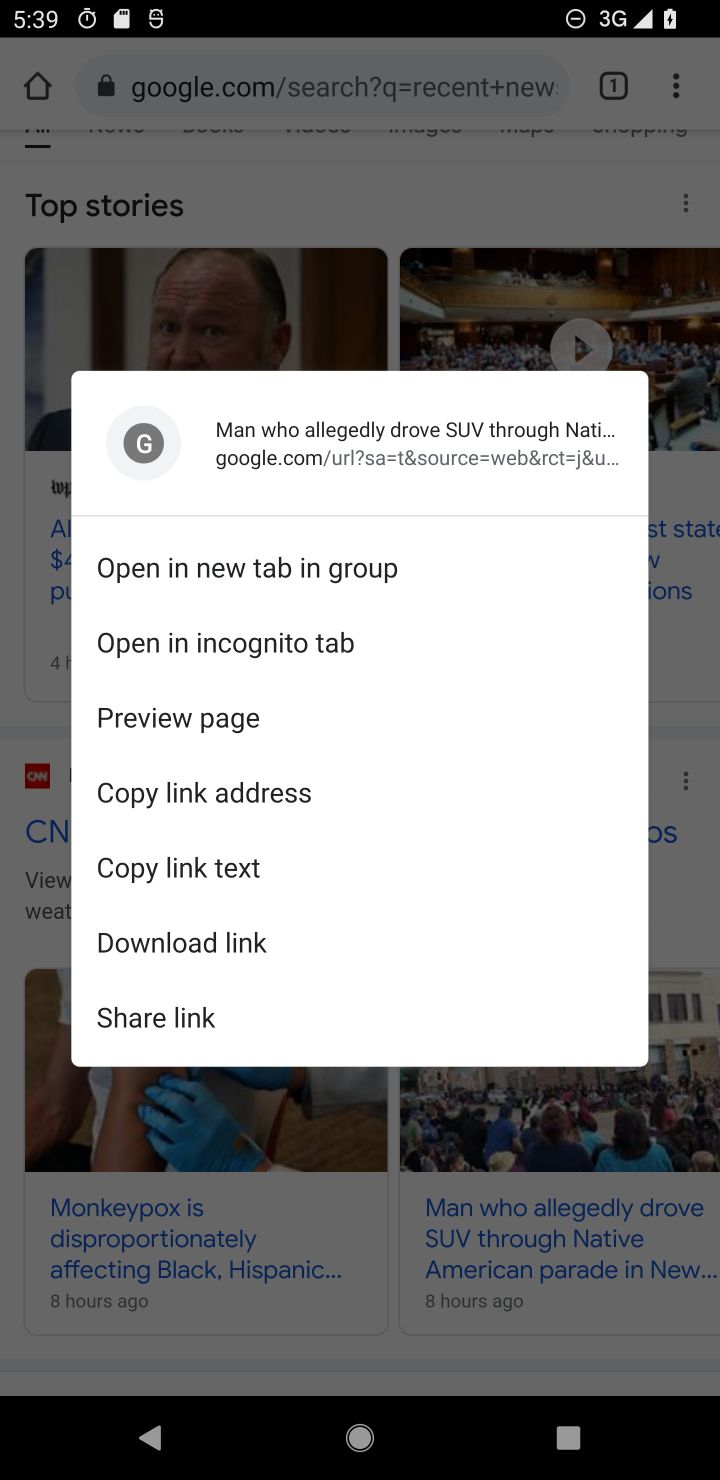
Step 33: task complete